Your task to perform on an android device: Clear the cart on amazon.com. Add lg ultragear to the cart on amazon.com Image 0: 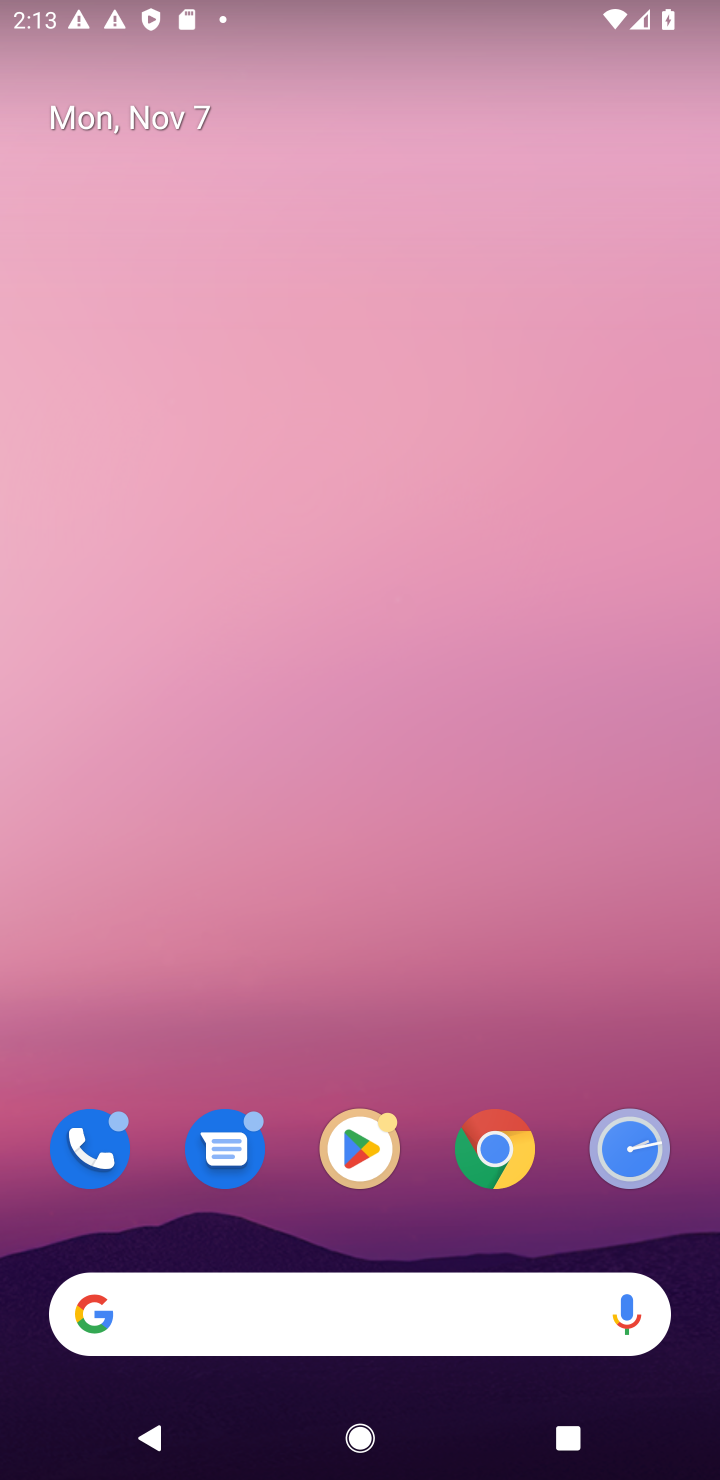
Step 0: click (501, 1153)
Your task to perform on an android device: Clear the cart on amazon.com. Add lg ultragear to the cart on amazon.com Image 1: 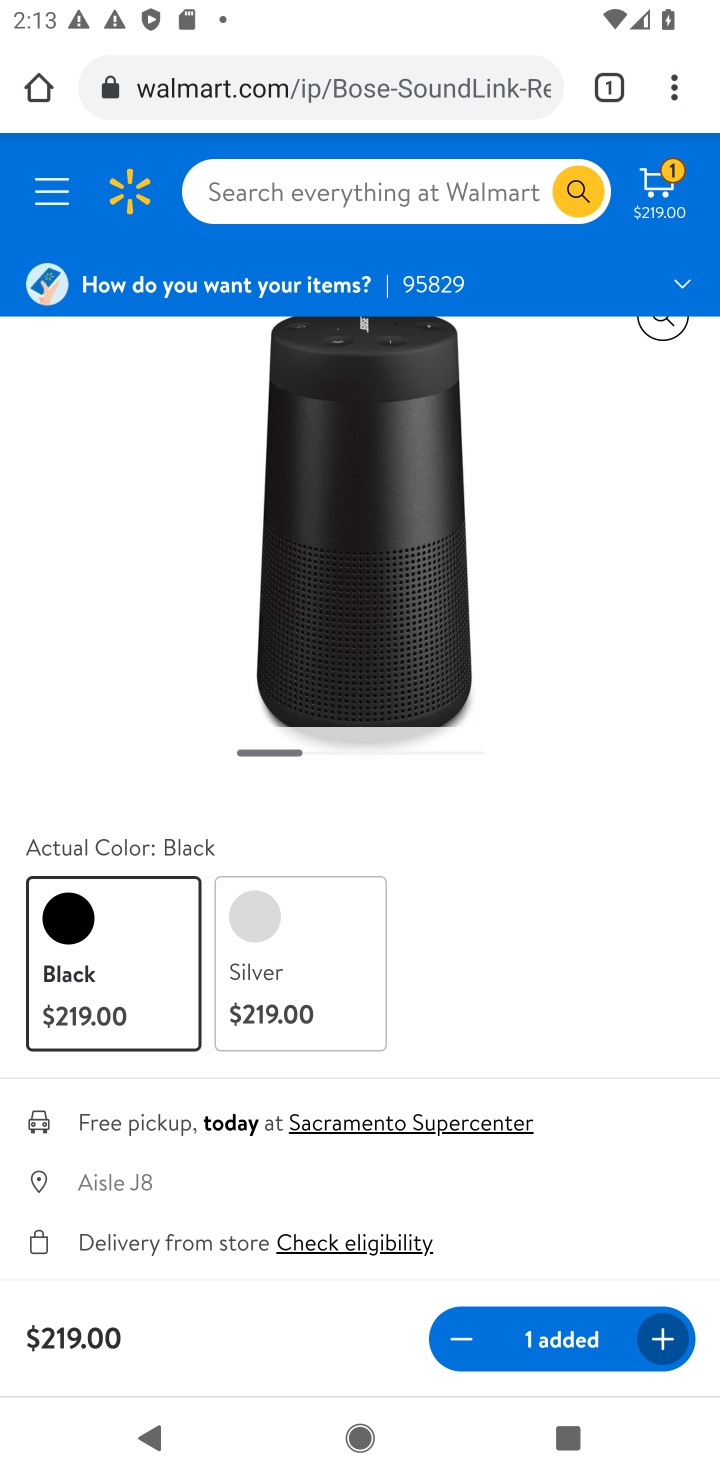
Step 1: click (280, 97)
Your task to perform on an android device: Clear the cart on amazon.com. Add lg ultragear to the cart on amazon.com Image 2: 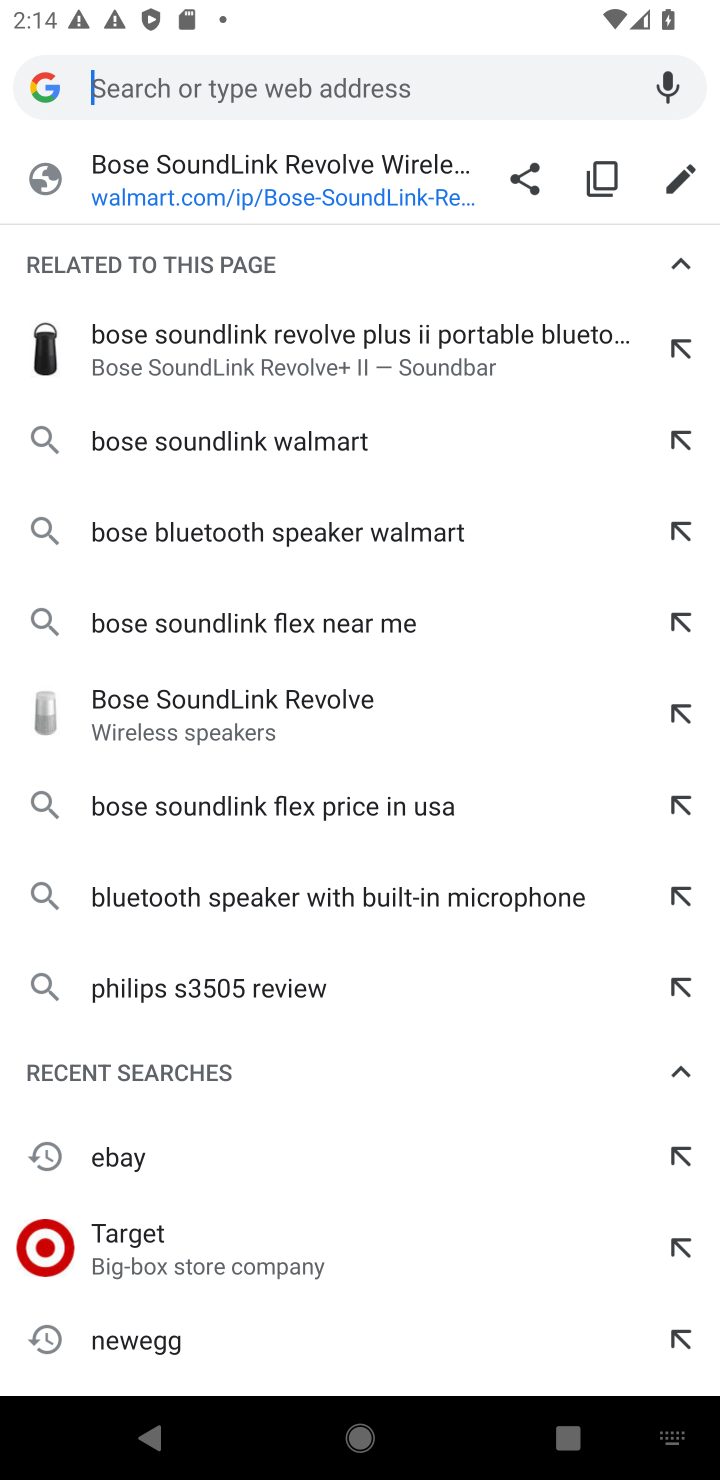
Step 2: type "amazon"
Your task to perform on an android device: Clear the cart on amazon.com. Add lg ultragear to the cart on amazon.com Image 3: 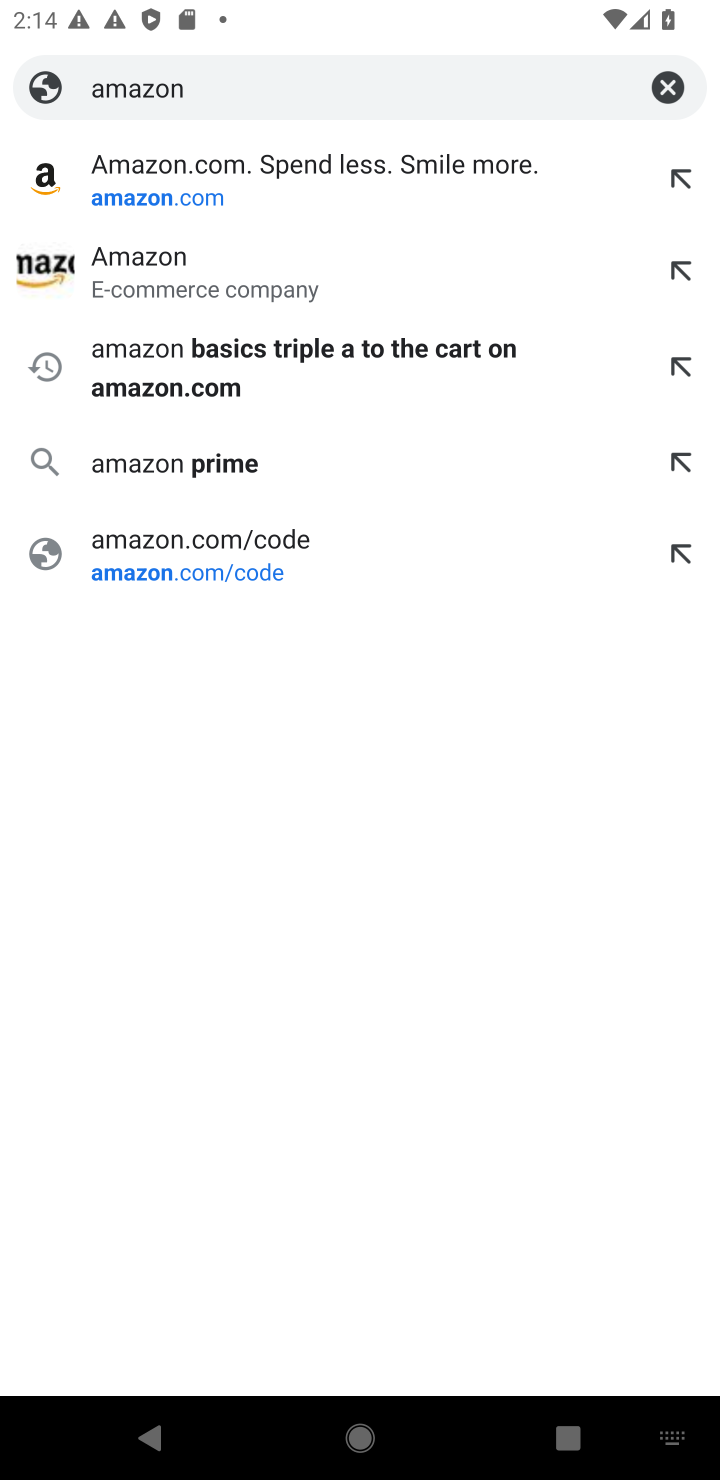
Step 3: click (145, 278)
Your task to perform on an android device: Clear the cart on amazon.com. Add lg ultragear to the cart on amazon.com Image 4: 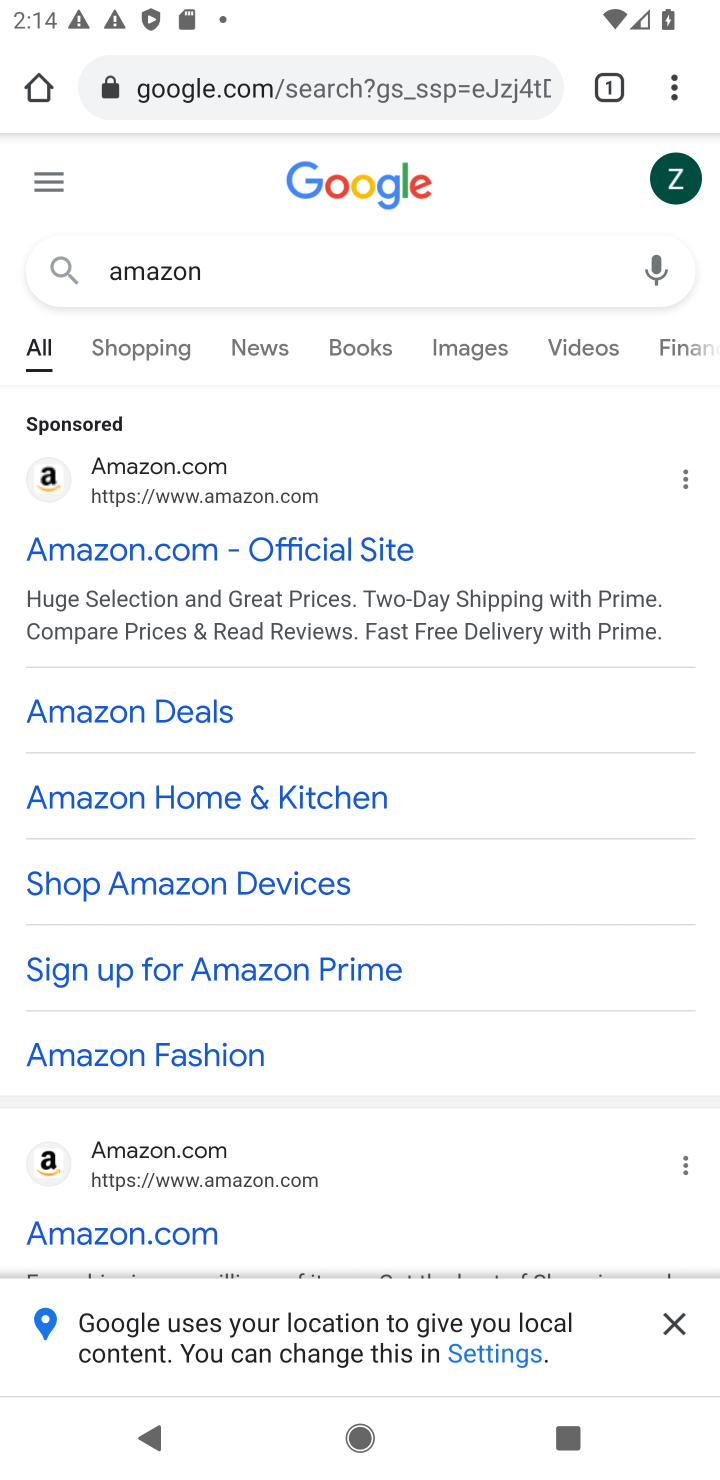
Step 4: click (673, 1309)
Your task to perform on an android device: Clear the cart on amazon.com. Add lg ultragear to the cart on amazon.com Image 5: 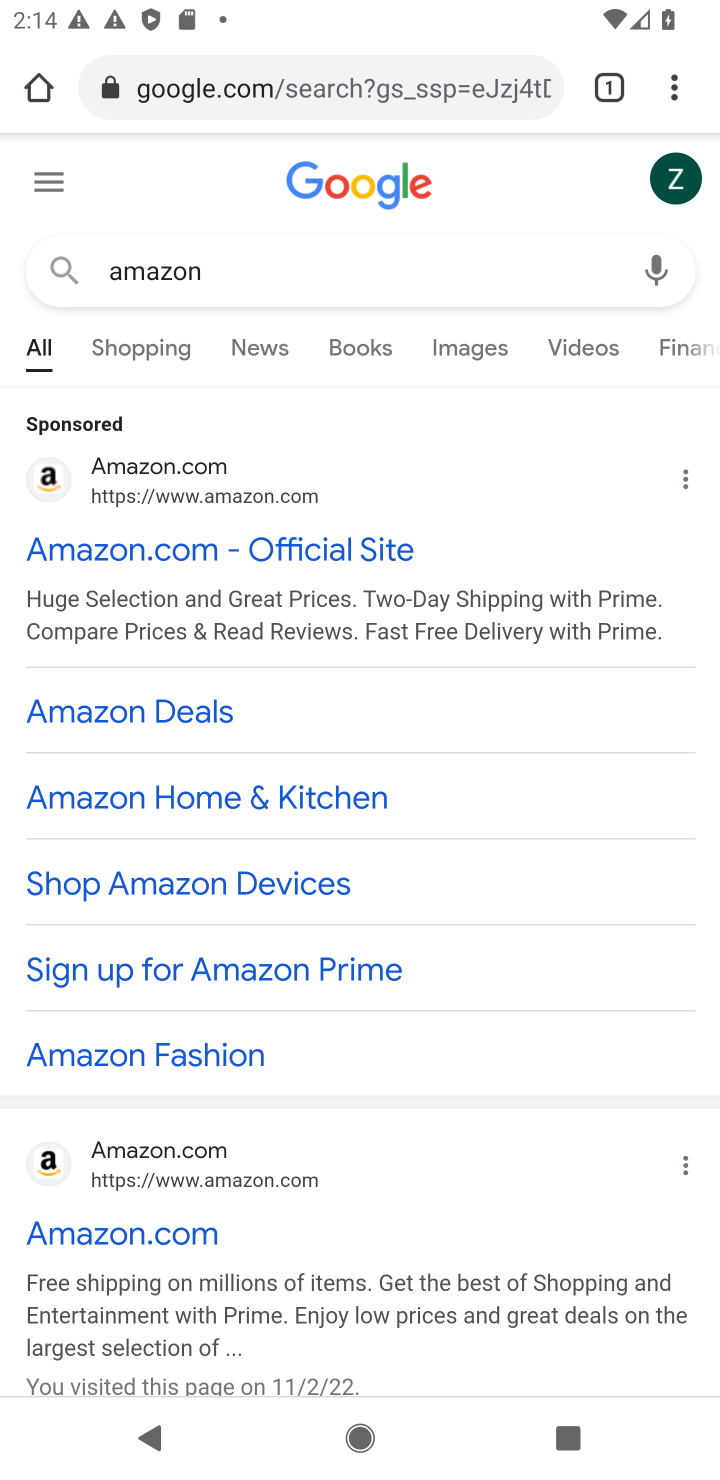
Step 5: click (111, 1233)
Your task to perform on an android device: Clear the cart on amazon.com. Add lg ultragear to the cart on amazon.com Image 6: 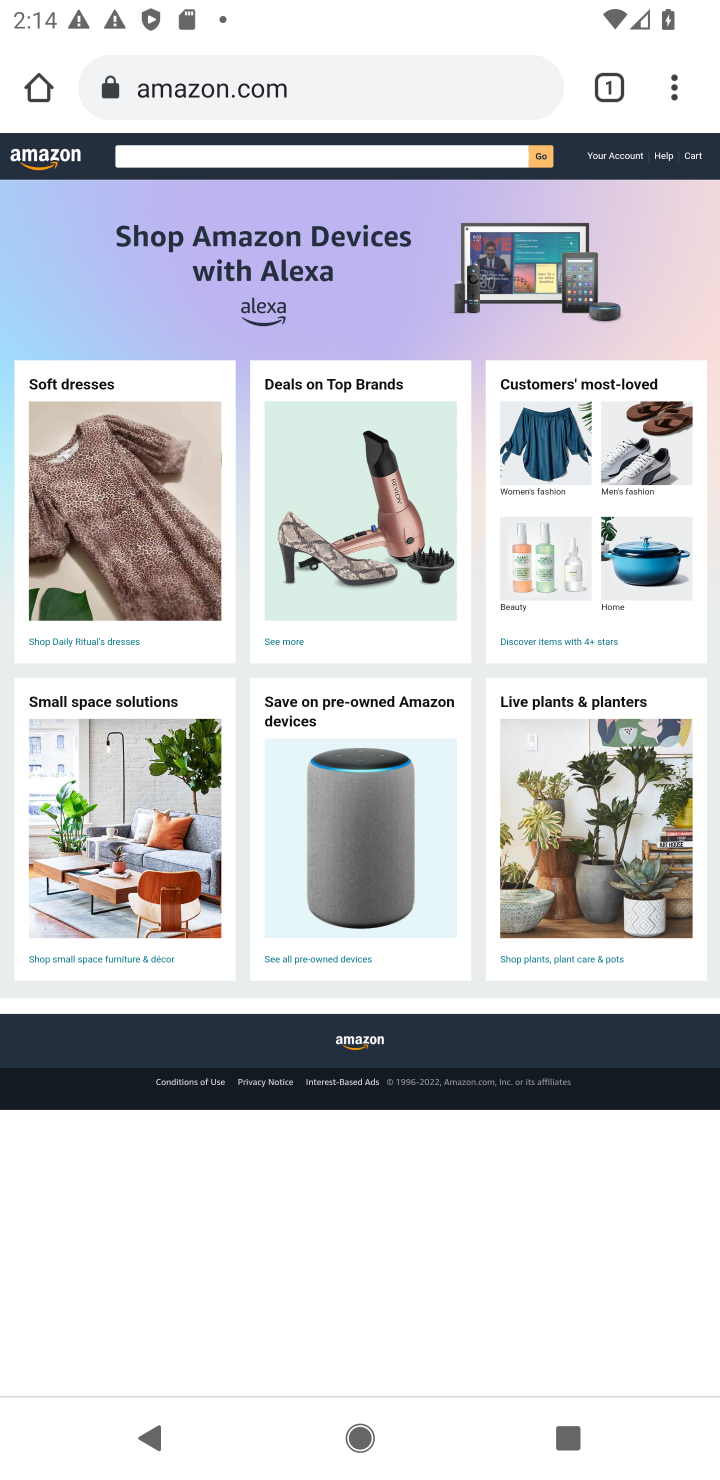
Step 6: click (212, 156)
Your task to perform on an android device: Clear the cart on amazon.com. Add lg ultragear to the cart on amazon.com Image 7: 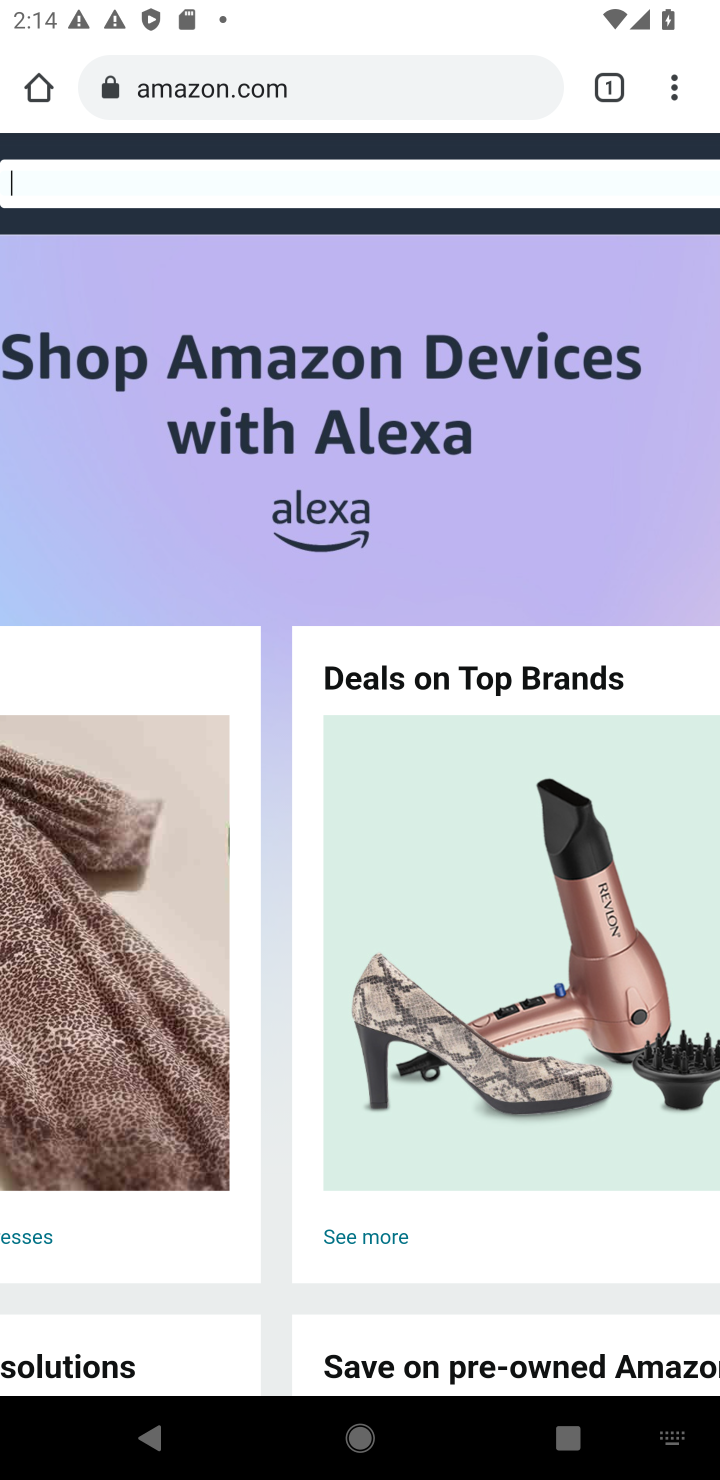
Step 7: type "lg ultragear "
Your task to perform on an android device: Clear the cart on amazon.com. Add lg ultragear to the cart on amazon.com Image 8: 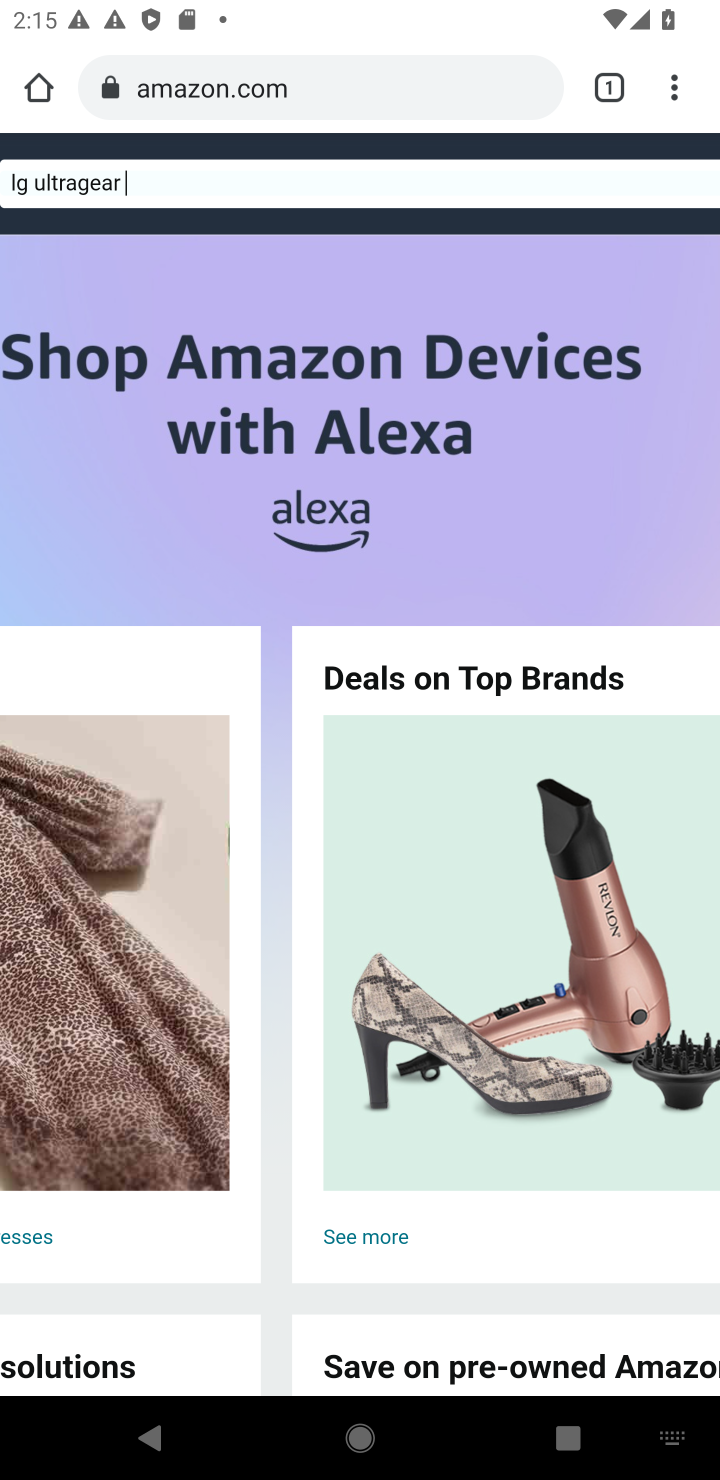
Step 8: type ""
Your task to perform on an android device: Clear the cart on amazon.com. Add lg ultragear to the cart on amazon.com Image 9: 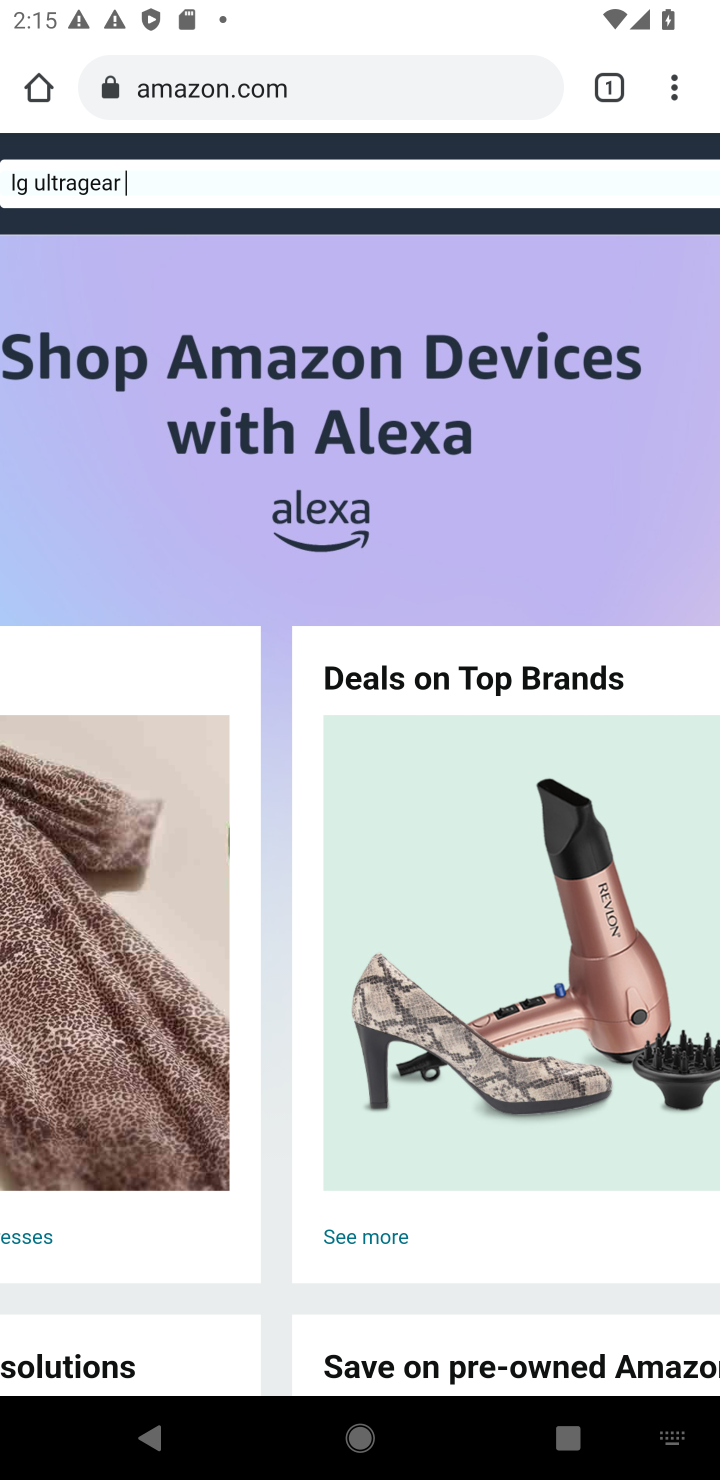
Step 9: type ""
Your task to perform on an android device: Clear the cart on amazon.com. Add lg ultragear to the cart on amazon.com Image 10: 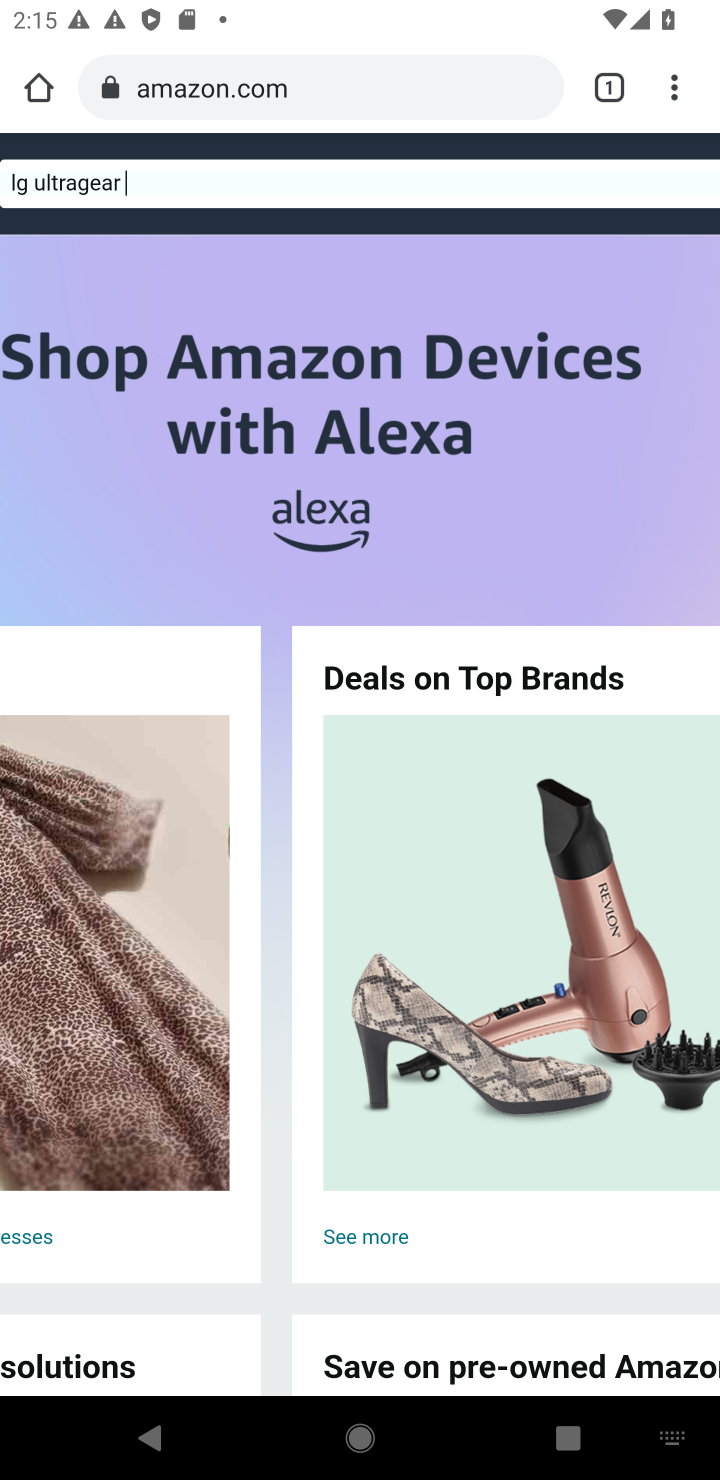
Step 10: drag from (399, 882) to (405, 212)
Your task to perform on an android device: Clear the cart on amazon.com. Add lg ultragear to the cart on amazon.com Image 11: 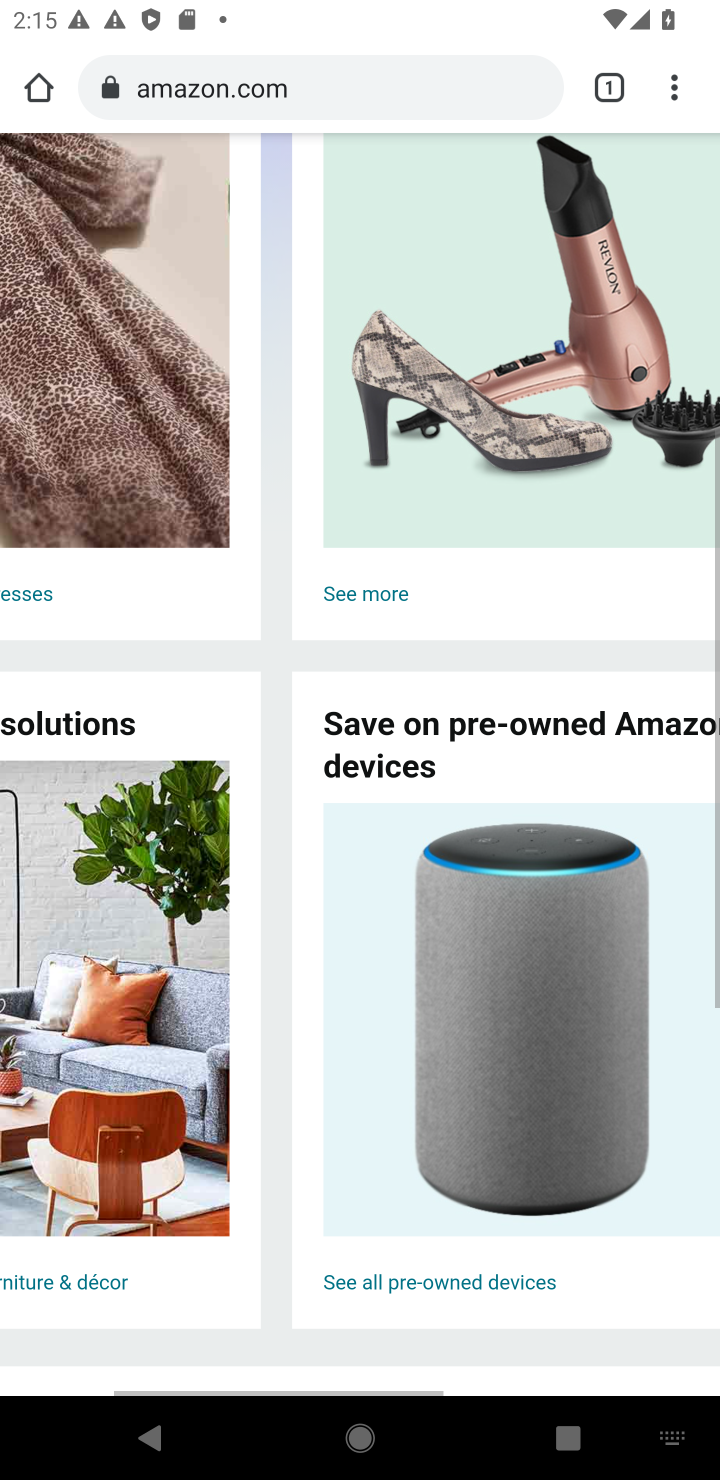
Step 11: drag from (471, 1117) to (498, 433)
Your task to perform on an android device: Clear the cart on amazon.com. Add lg ultragear to the cart on amazon.com Image 12: 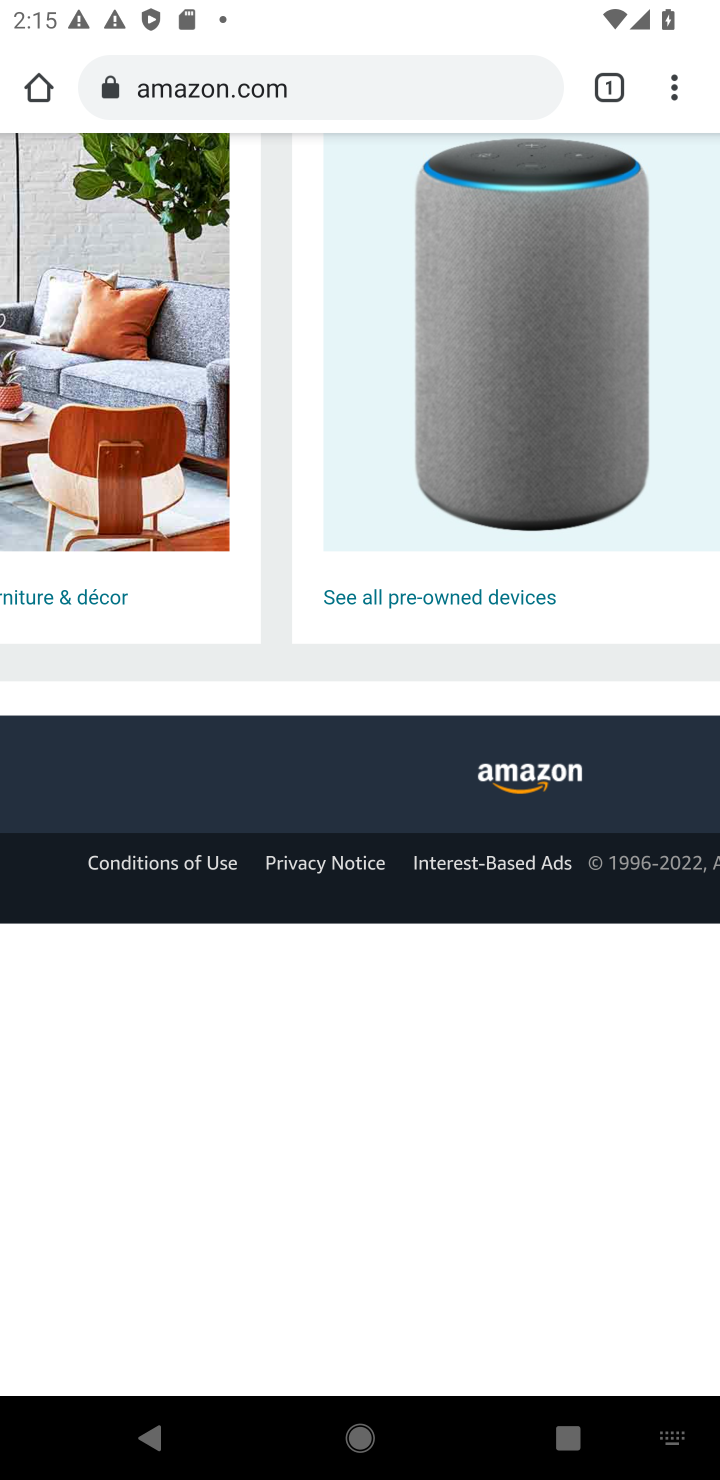
Step 12: drag from (373, 1004) to (410, 303)
Your task to perform on an android device: Clear the cart on amazon.com. Add lg ultragear to the cart on amazon.com Image 13: 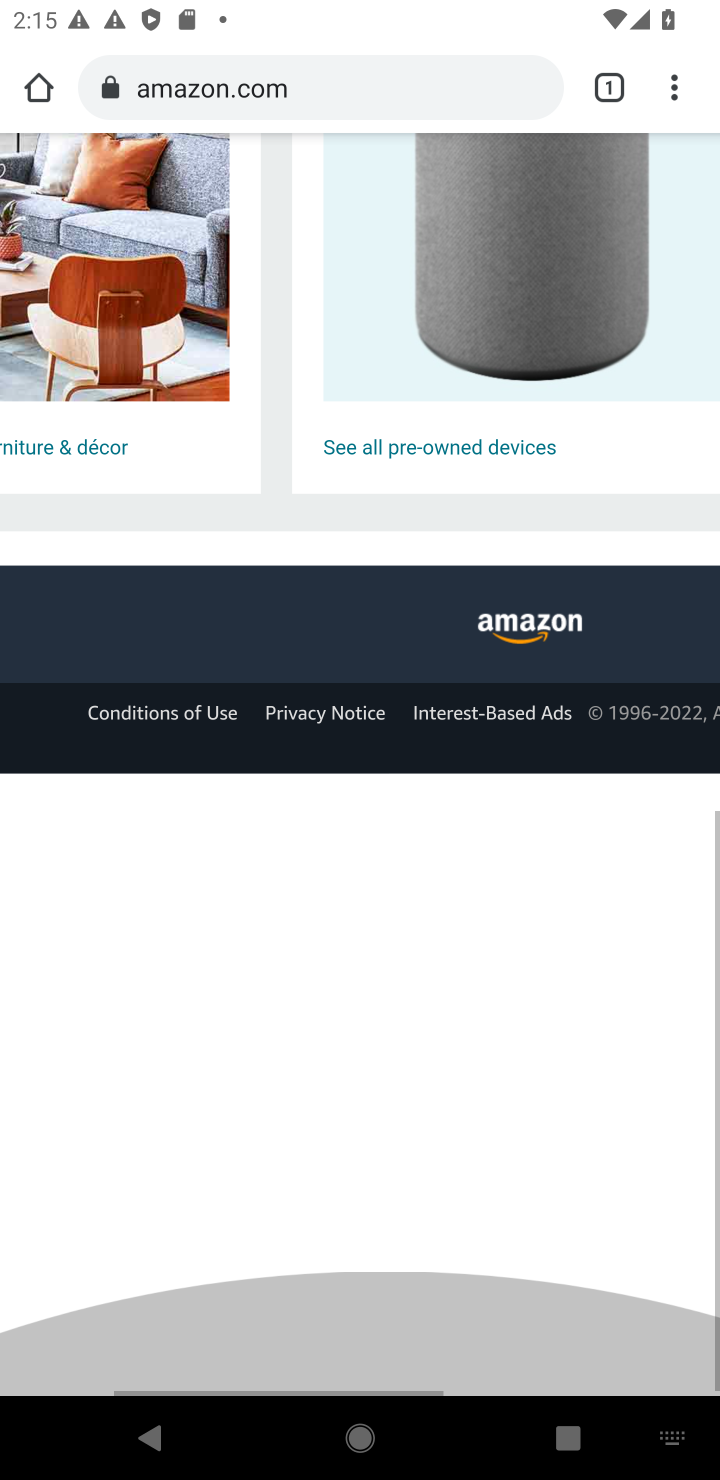
Step 13: drag from (436, 1284) to (427, 464)
Your task to perform on an android device: Clear the cart on amazon.com. Add lg ultragear to the cart on amazon.com Image 14: 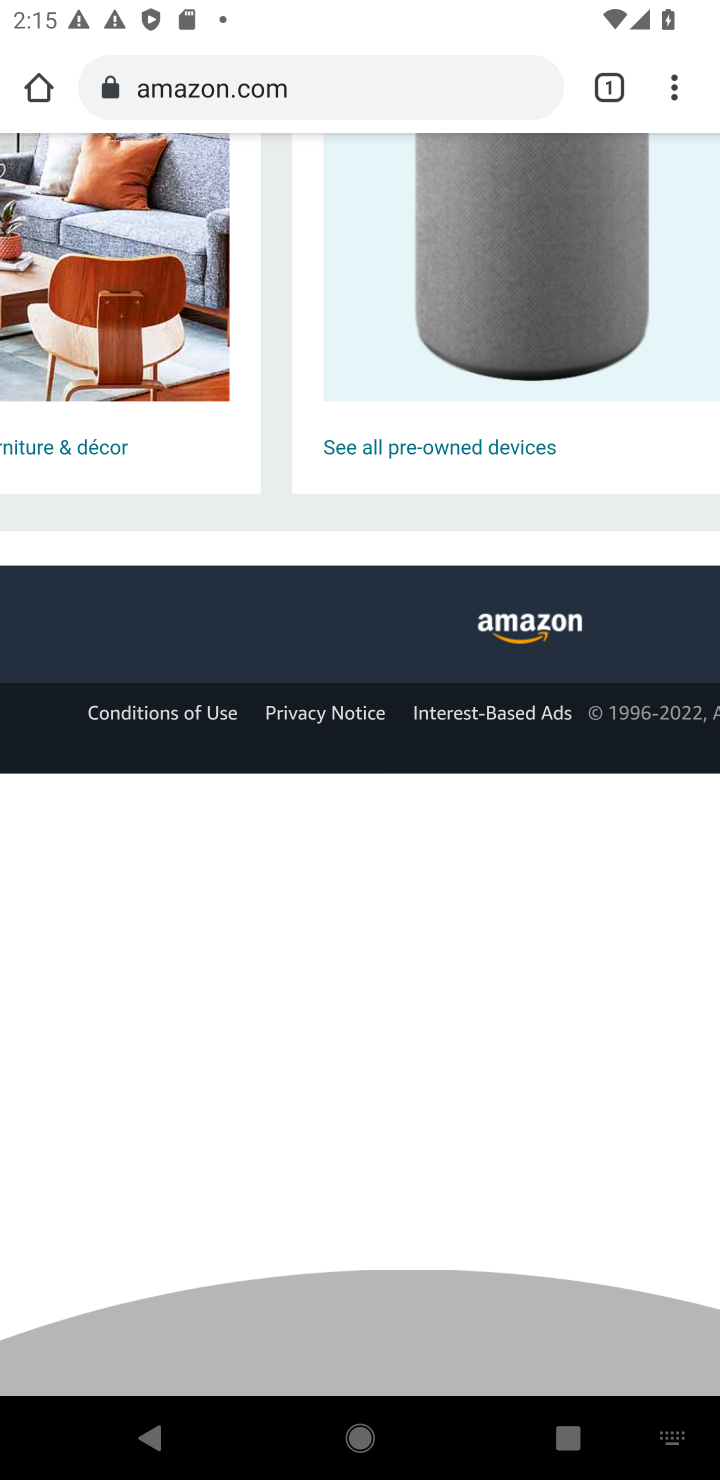
Step 14: drag from (294, 430) to (478, 1214)
Your task to perform on an android device: Clear the cart on amazon.com. Add lg ultragear to the cart on amazon.com Image 15: 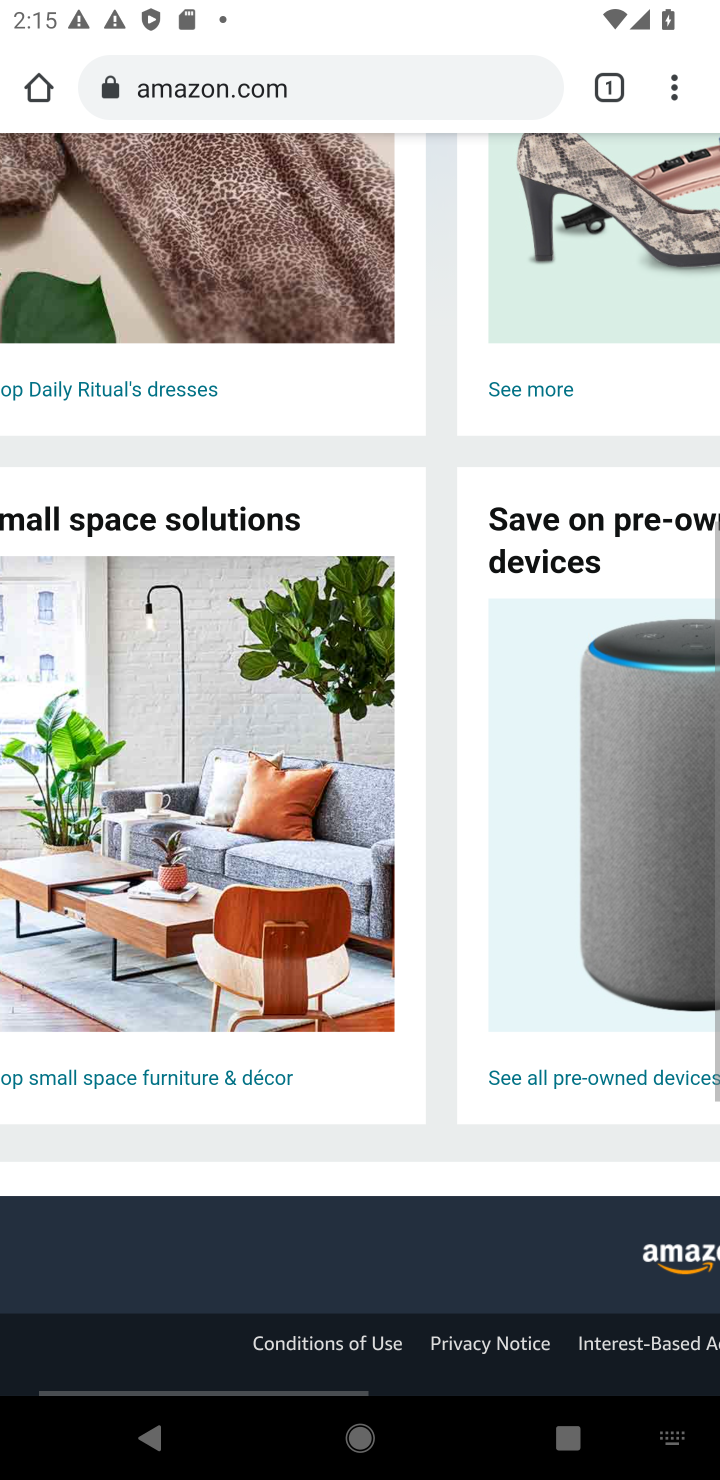
Step 15: drag from (266, 878) to (268, 1270)
Your task to perform on an android device: Clear the cart on amazon.com. Add lg ultragear to the cart on amazon.com Image 16: 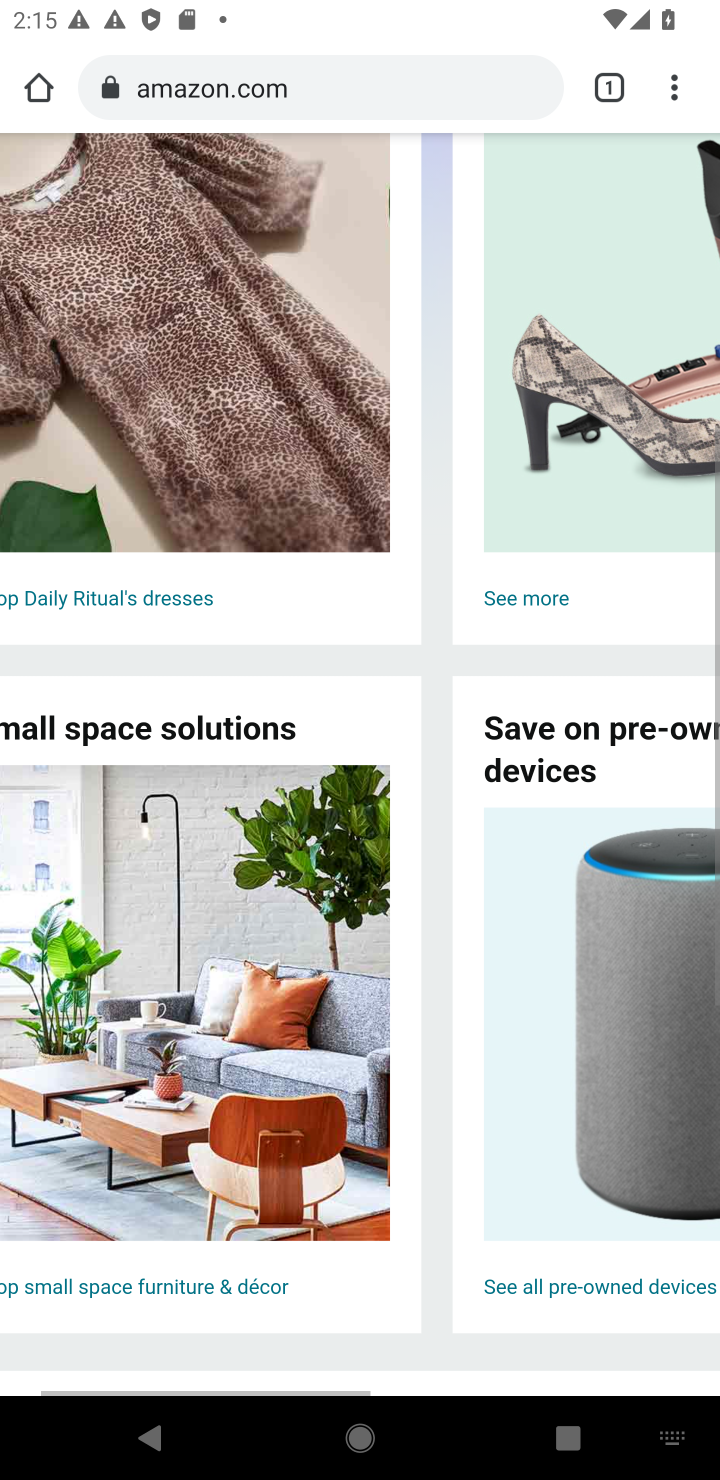
Step 16: drag from (364, 1051) to (290, 1296)
Your task to perform on an android device: Clear the cart on amazon.com. Add lg ultragear to the cart on amazon.com Image 17: 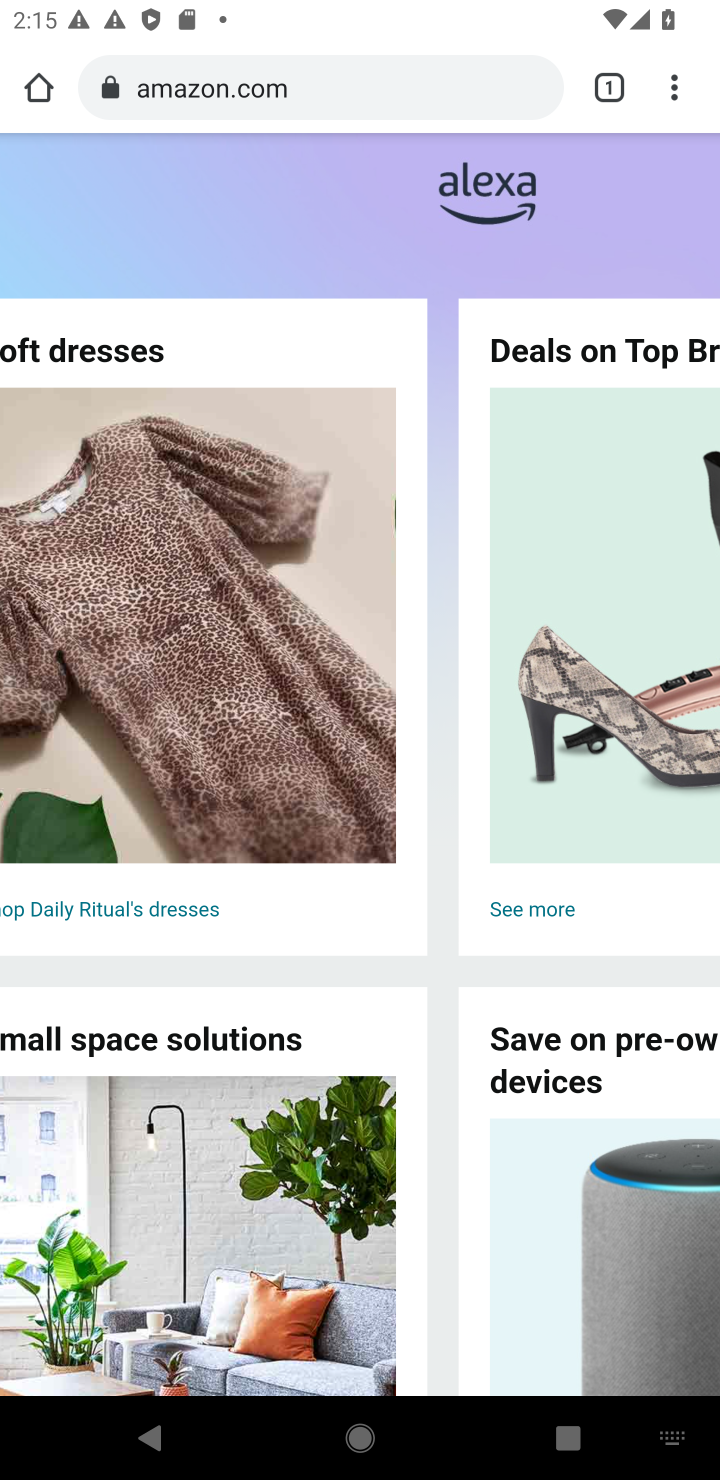
Step 17: drag from (433, 369) to (476, 1243)
Your task to perform on an android device: Clear the cart on amazon.com. Add lg ultragear to the cart on amazon.com Image 18: 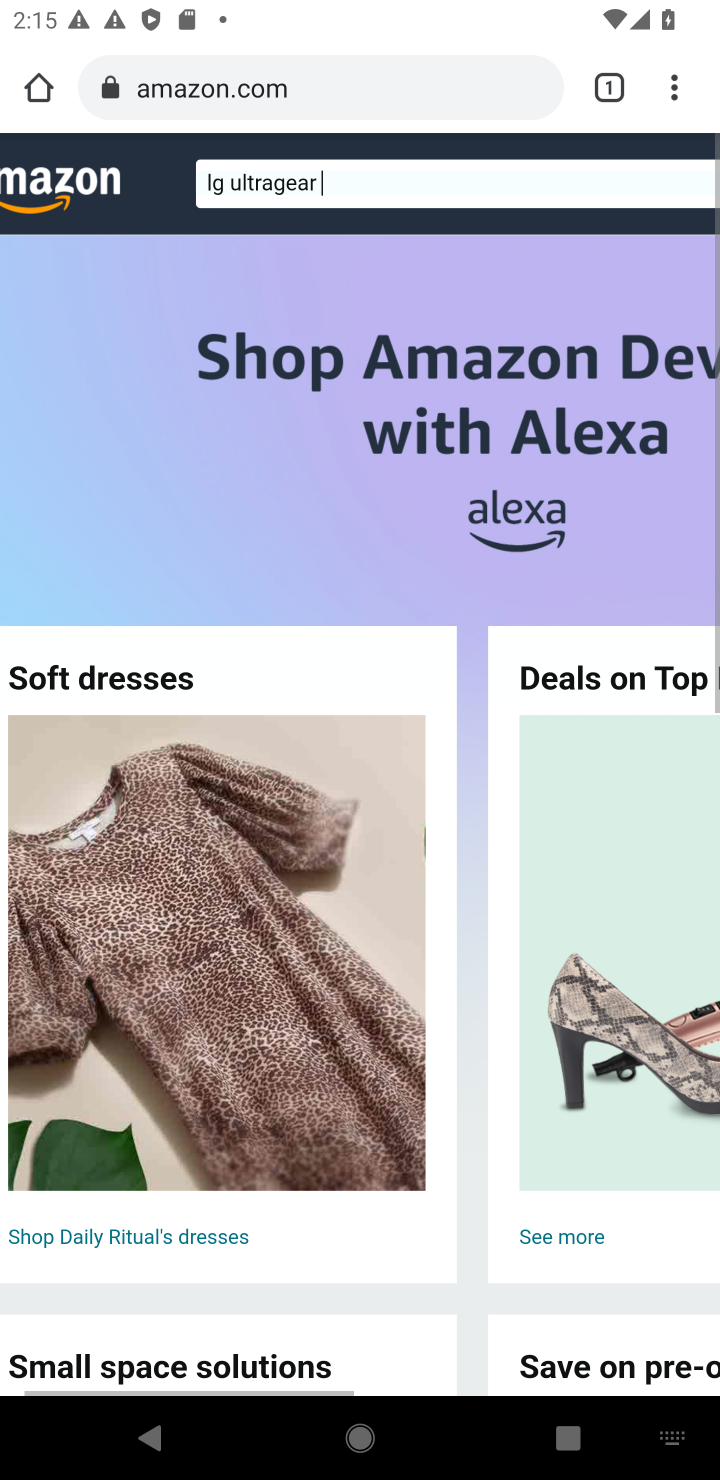
Step 18: drag from (421, 1124) to (345, 1221)
Your task to perform on an android device: Clear the cart on amazon.com. Add lg ultragear to the cart on amazon.com Image 19: 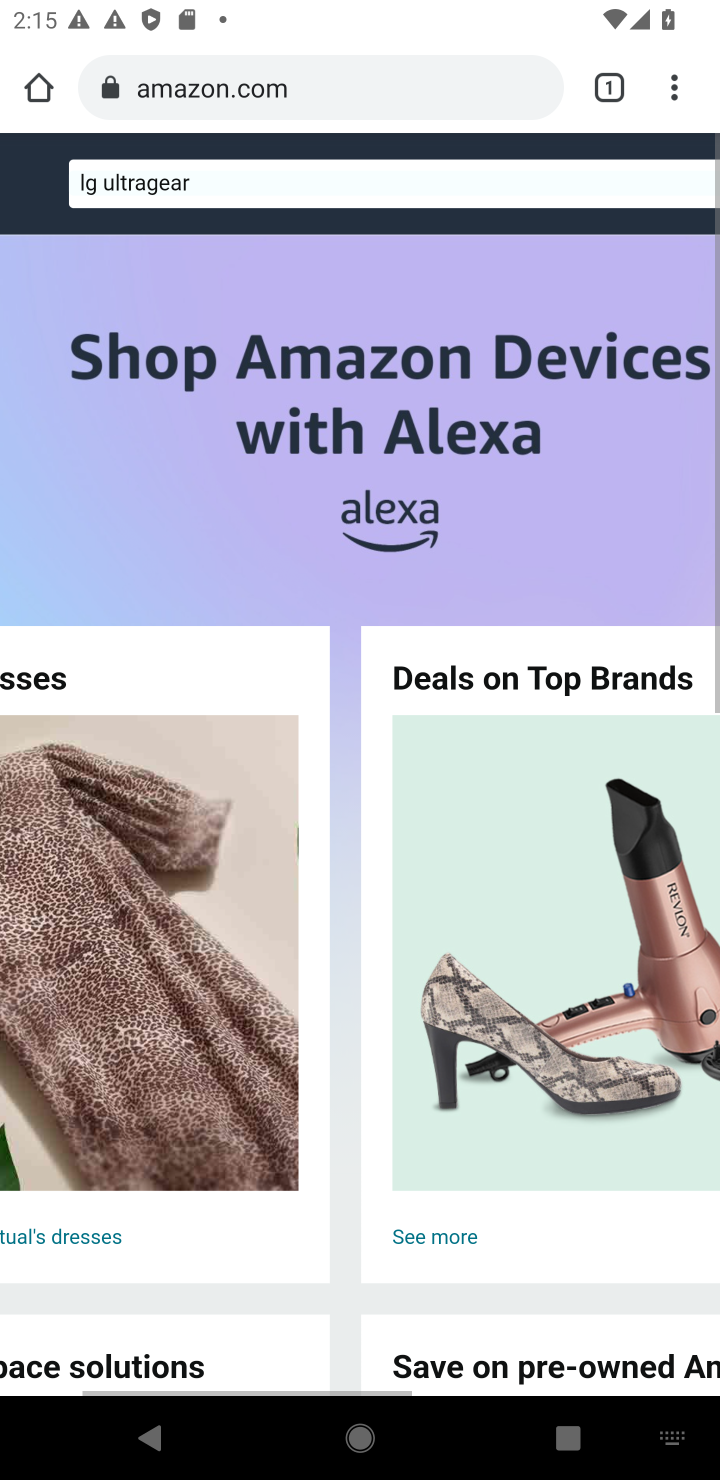
Step 19: drag from (225, 352) to (279, 773)
Your task to perform on an android device: Clear the cart on amazon.com. Add lg ultragear to the cart on amazon.com Image 20: 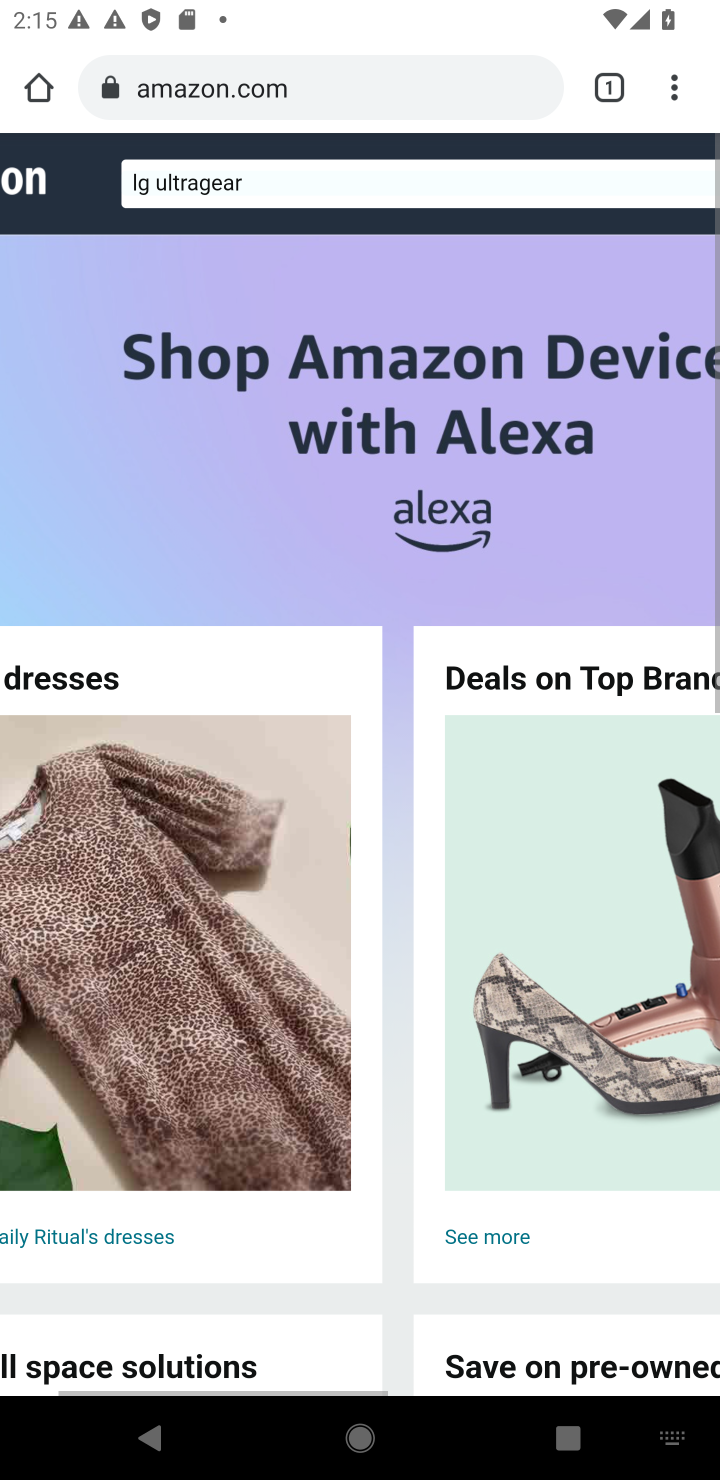
Step 20: click (224, 165)
Your task to perform on an android device: Clear the cart on amazon.com. Add lg ultragear to the cart on amazon.com Image 21: 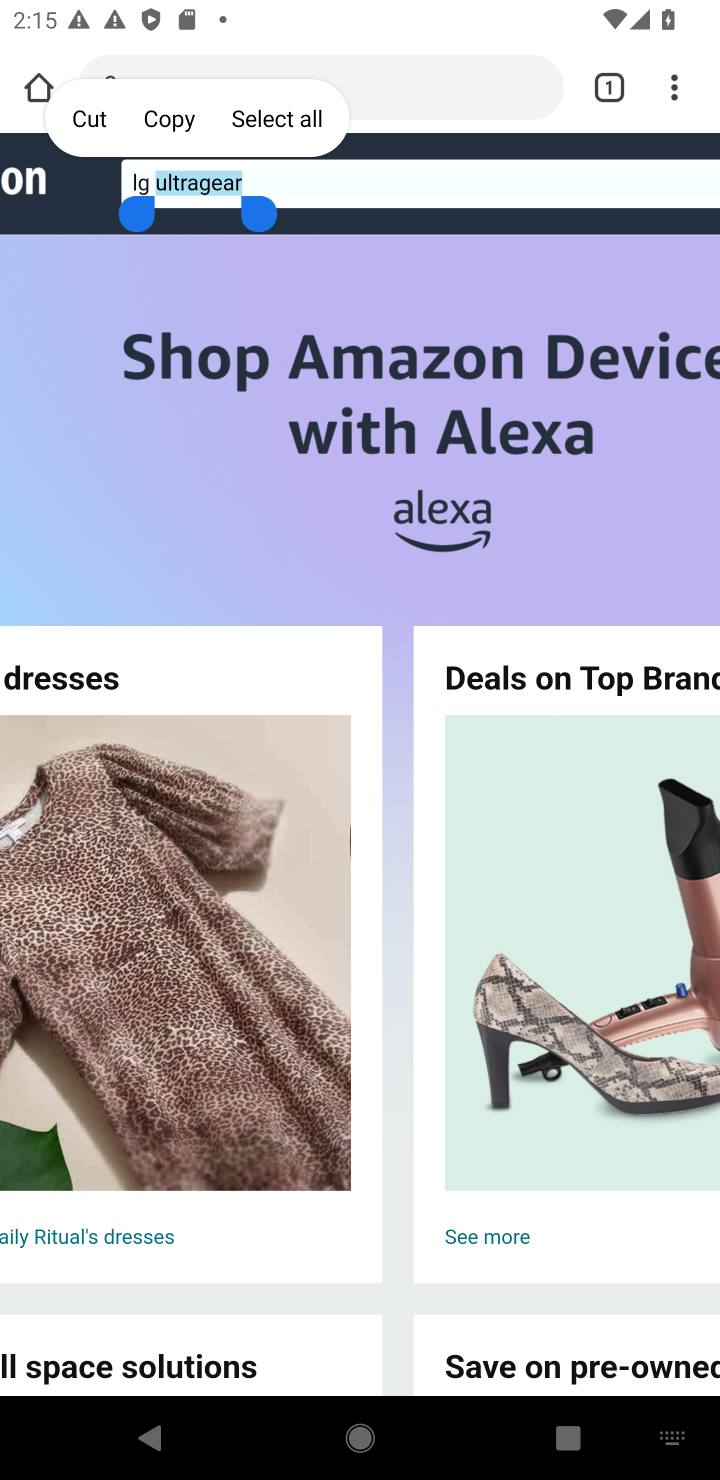
Step 21: click (82, 118)
Your task to perform on an android device: Clear the cart on amazon.com. Add lg ultragear to the cart on amazon.com Image 22: 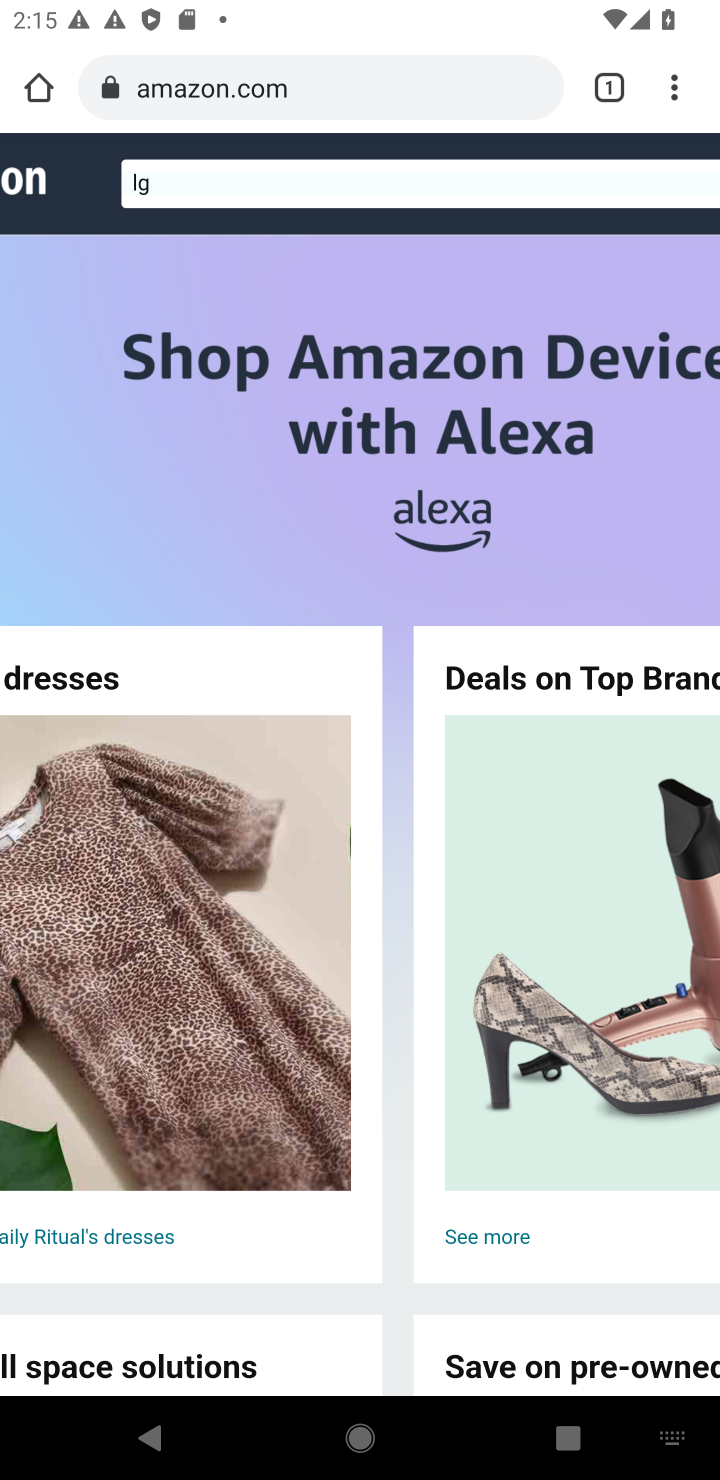
Step 22: type "ultragearr"
Your task to perform on an android device: Clear the cart on amazon.com. Add lg ultragear to the cart on amazon.com Image 23: 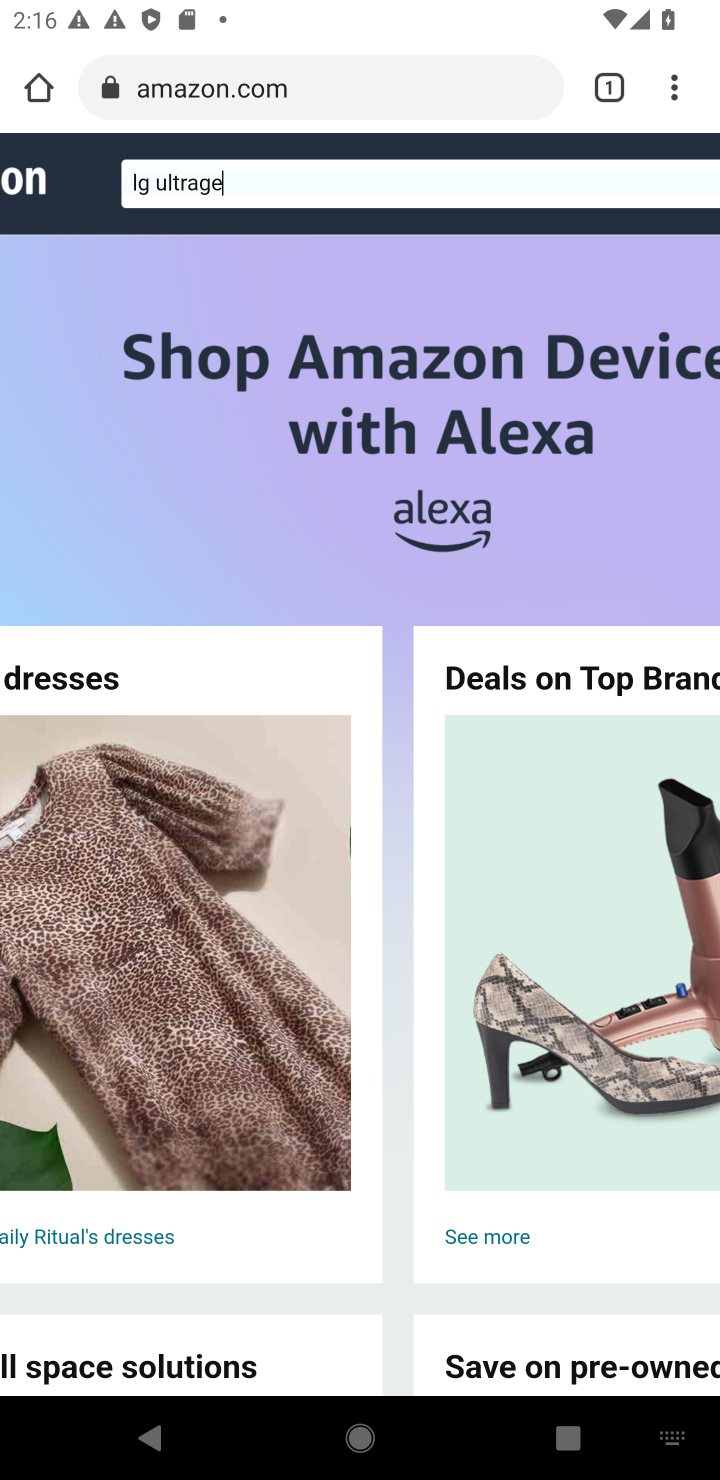
Step 23: type ""
Your task to perform on an android device: Clear the cart on amazon.com. Add lg ultragear to the cart on amazon.com Image 24: 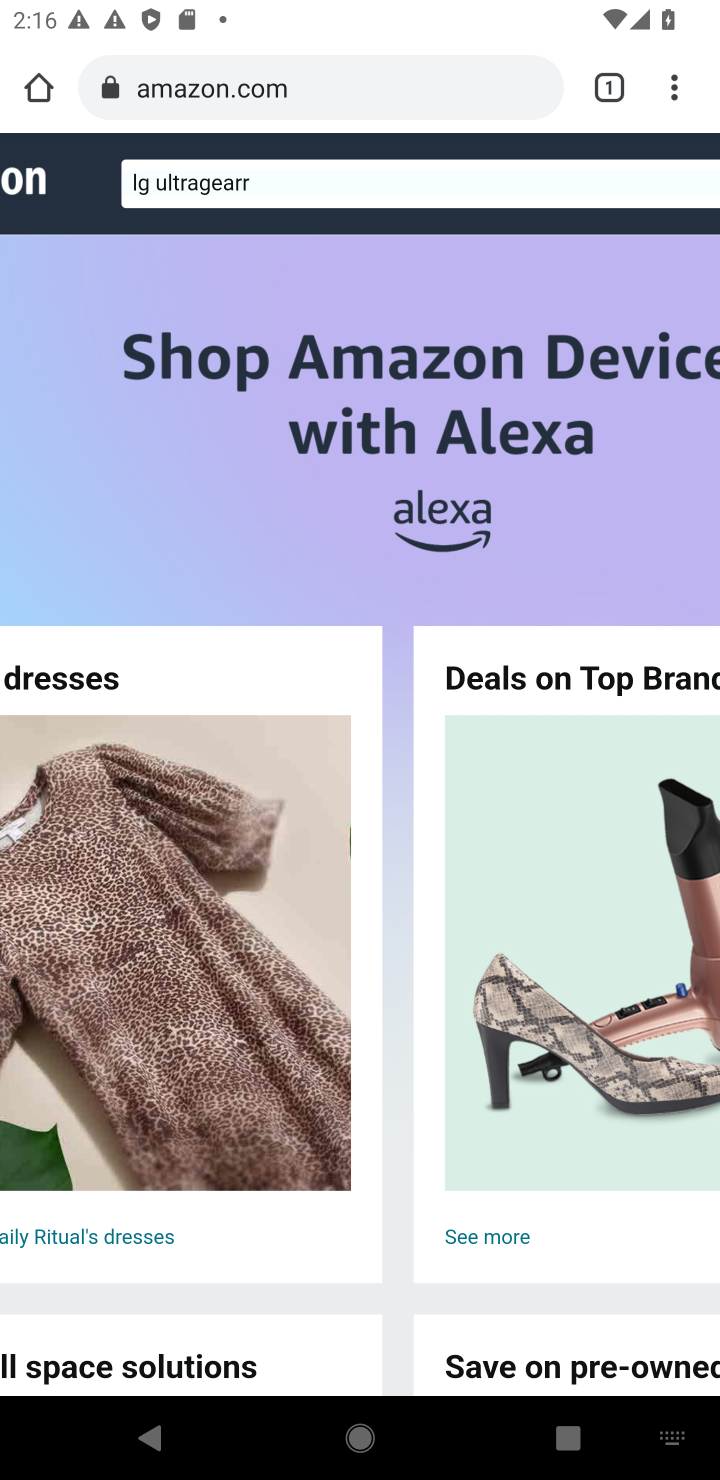
Step 24: type ""
Your task to perform on an android device: Clear the cart on amazon.com. Add lg ultragear to the cart on amazon.com Image 25: 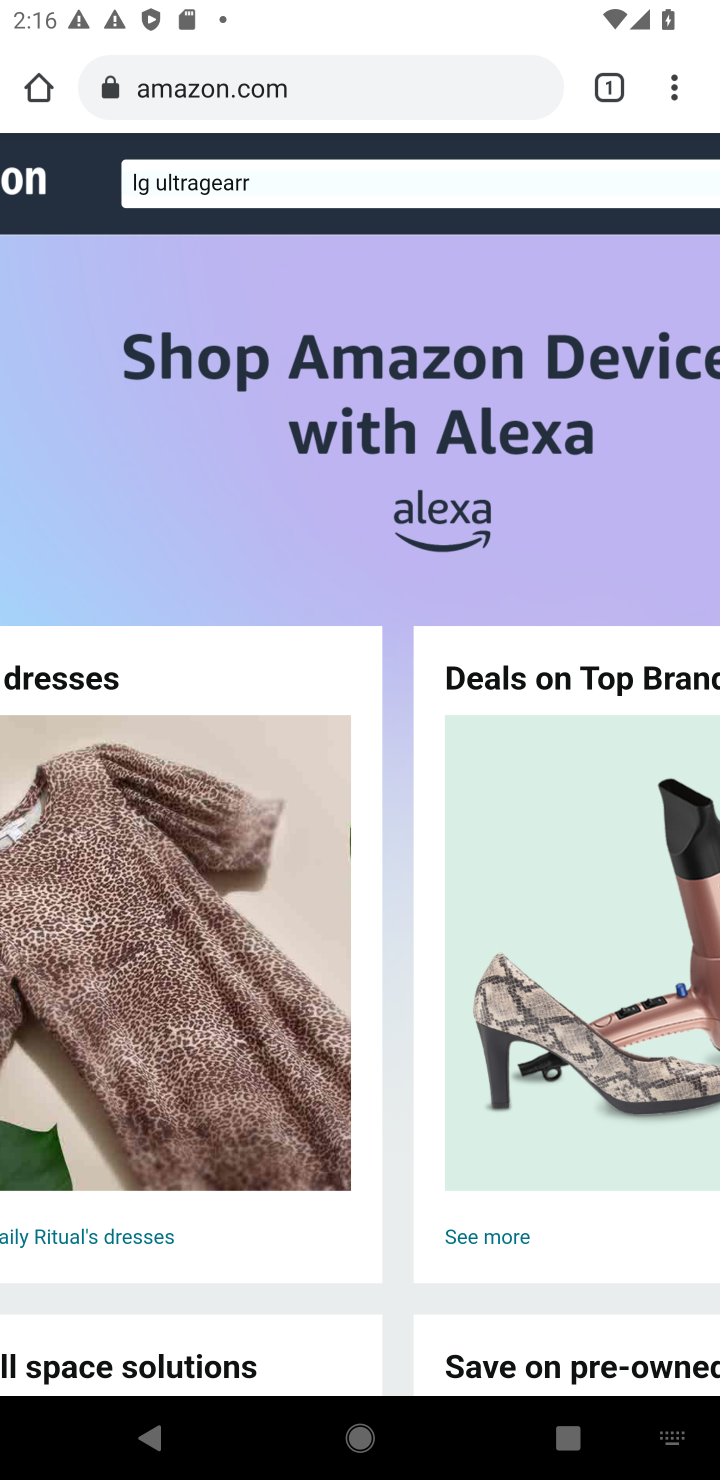
Step 25: type ""
Your task to perform on an android device: Clear the cart on amazon.com. Add lg ultragear to the cart on amazon.com Image 26: 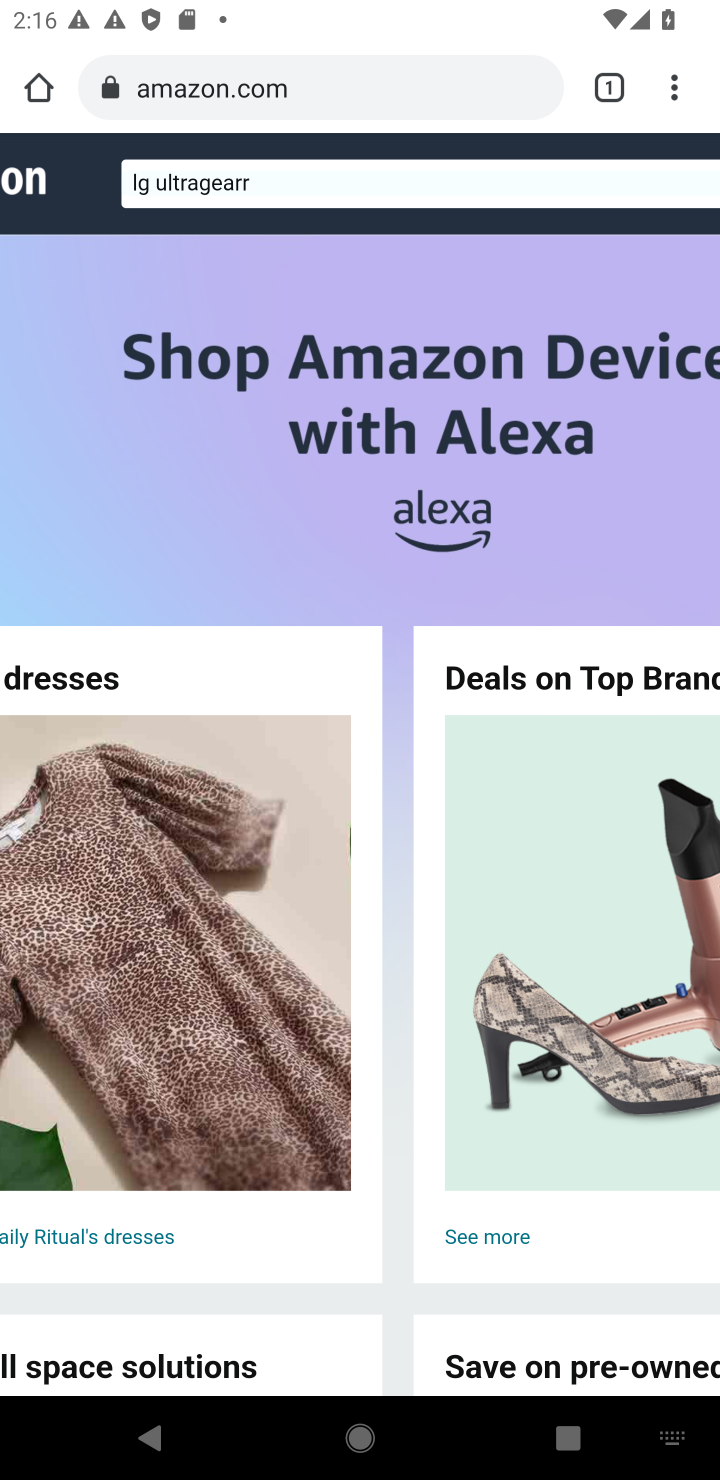
Step 26: press back button
Your task to perform on an android device: Clear the cart on amazon.com. Add lg ultragear to the cart on amazon.com Image 27: 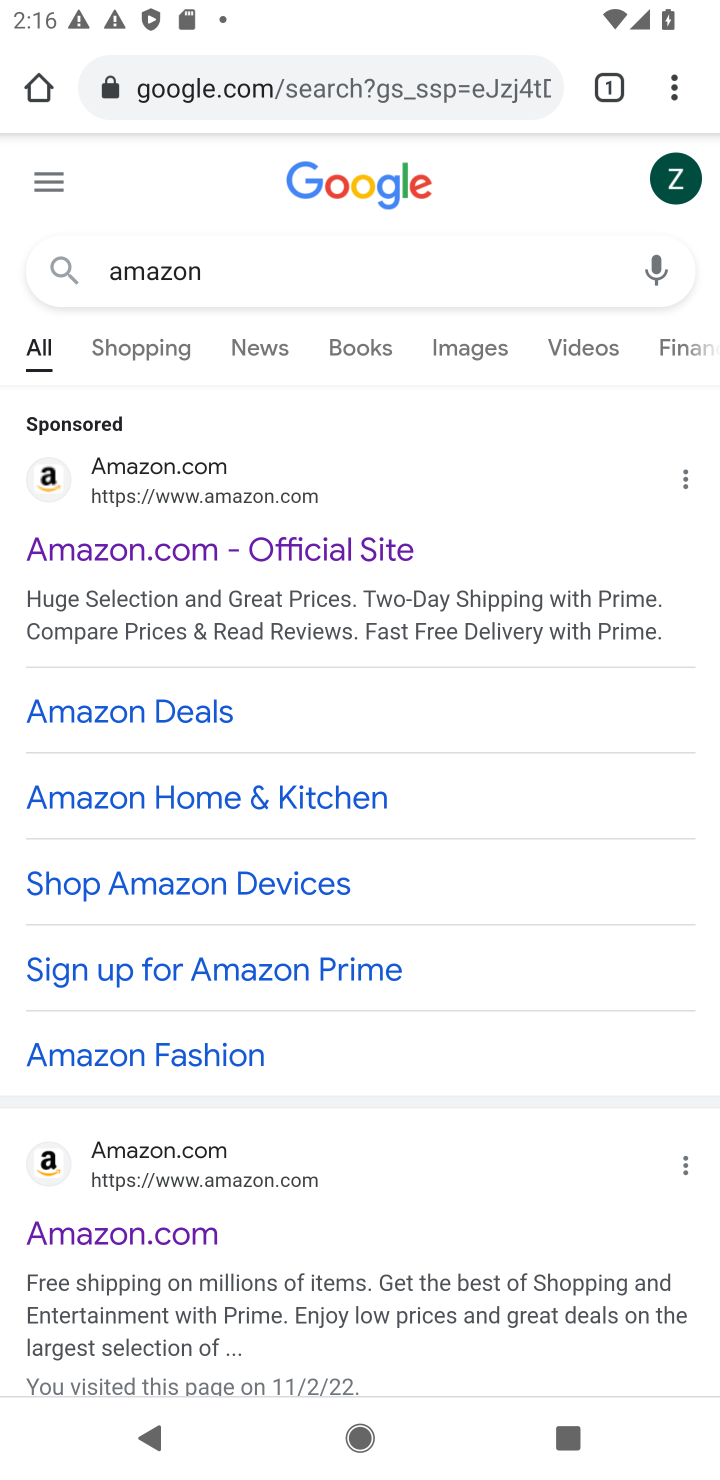
Step 27: drag from (308, 1194) to (312, 392)
Your task to perform on an android device: Clear the cart on amazon.com. Add lg ultragear to the cart on amazon.com Image 28: 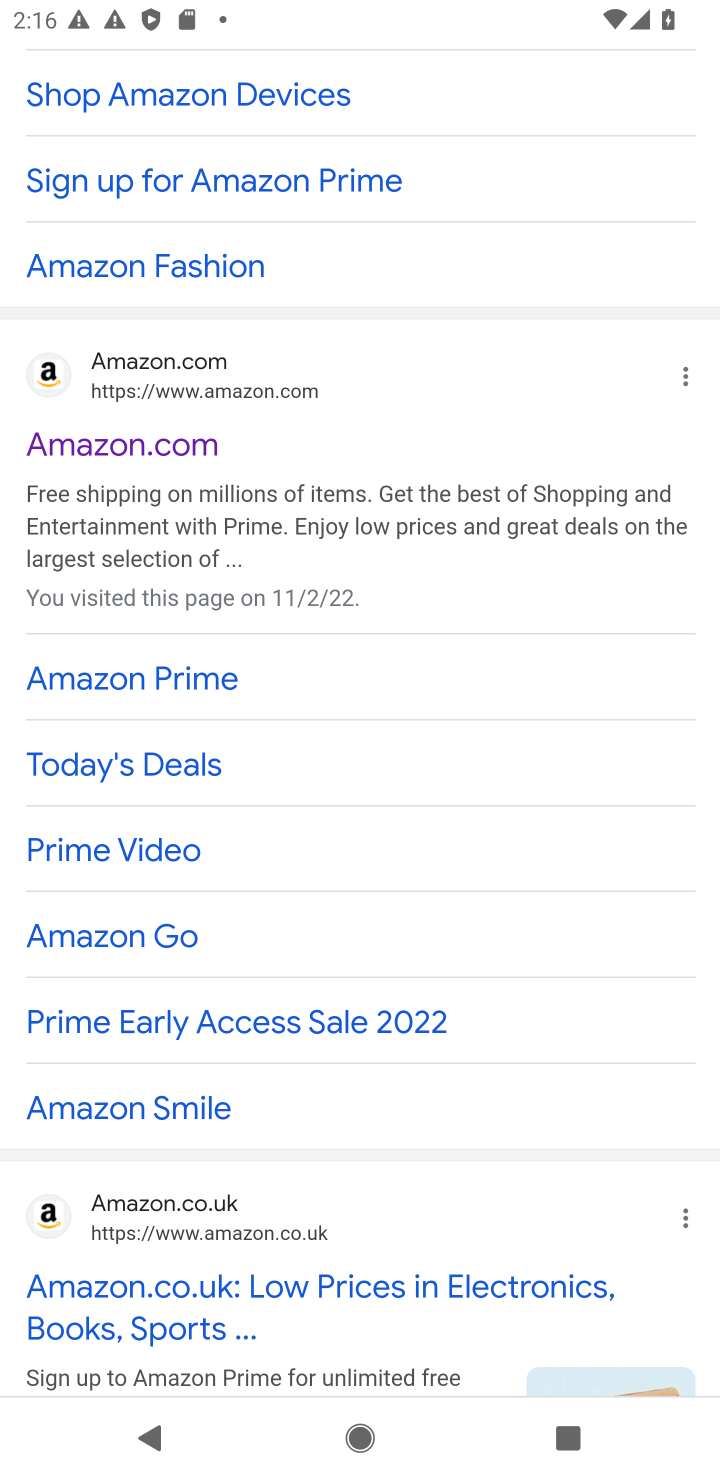
Step 28: click (75, 442)
Your task to perform on an android device: Clear the cart on amazon.com. Add lg ultragear to the cart on amazon.com Image 29: 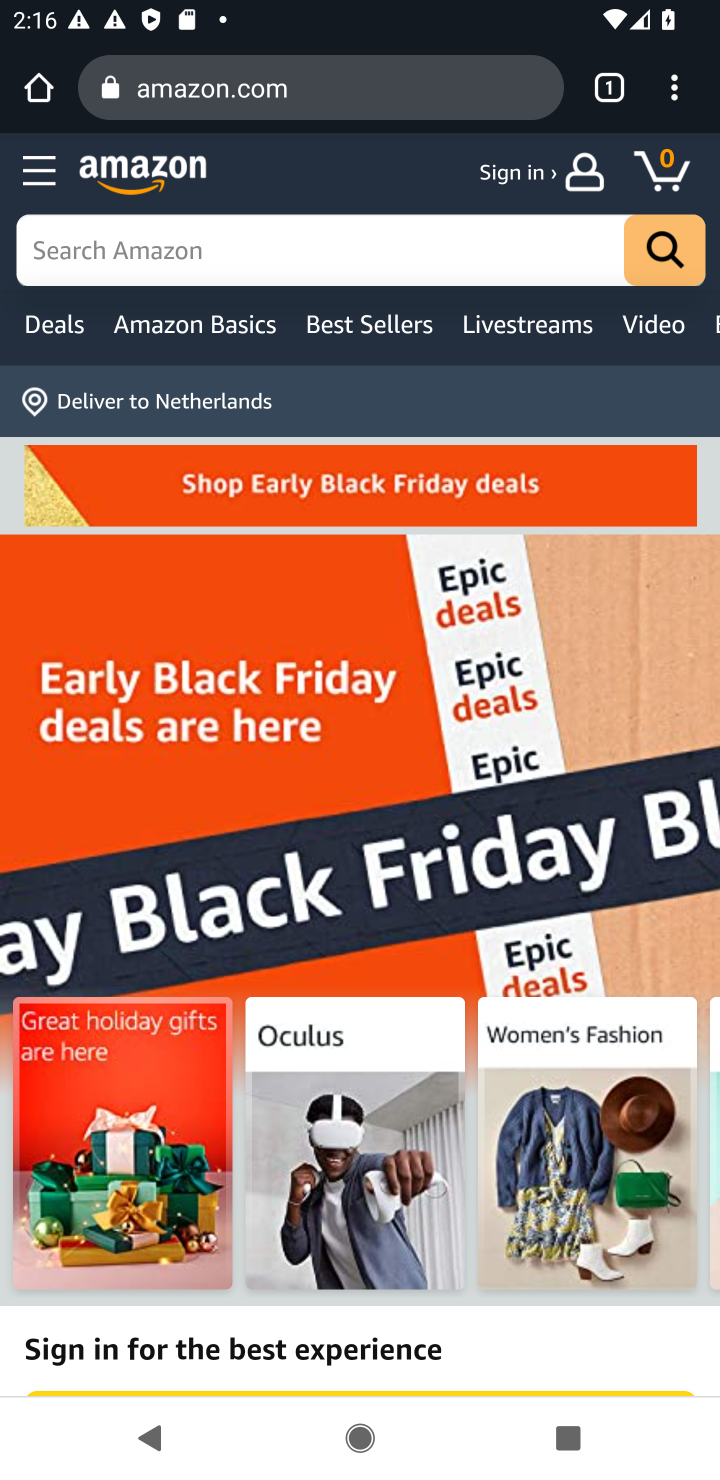
Step 29: click (399, 239)
Your task to perform on an android device: Clear the cart on amazon.com. Add lg ultragear to the cart on amazon.com Image 30: 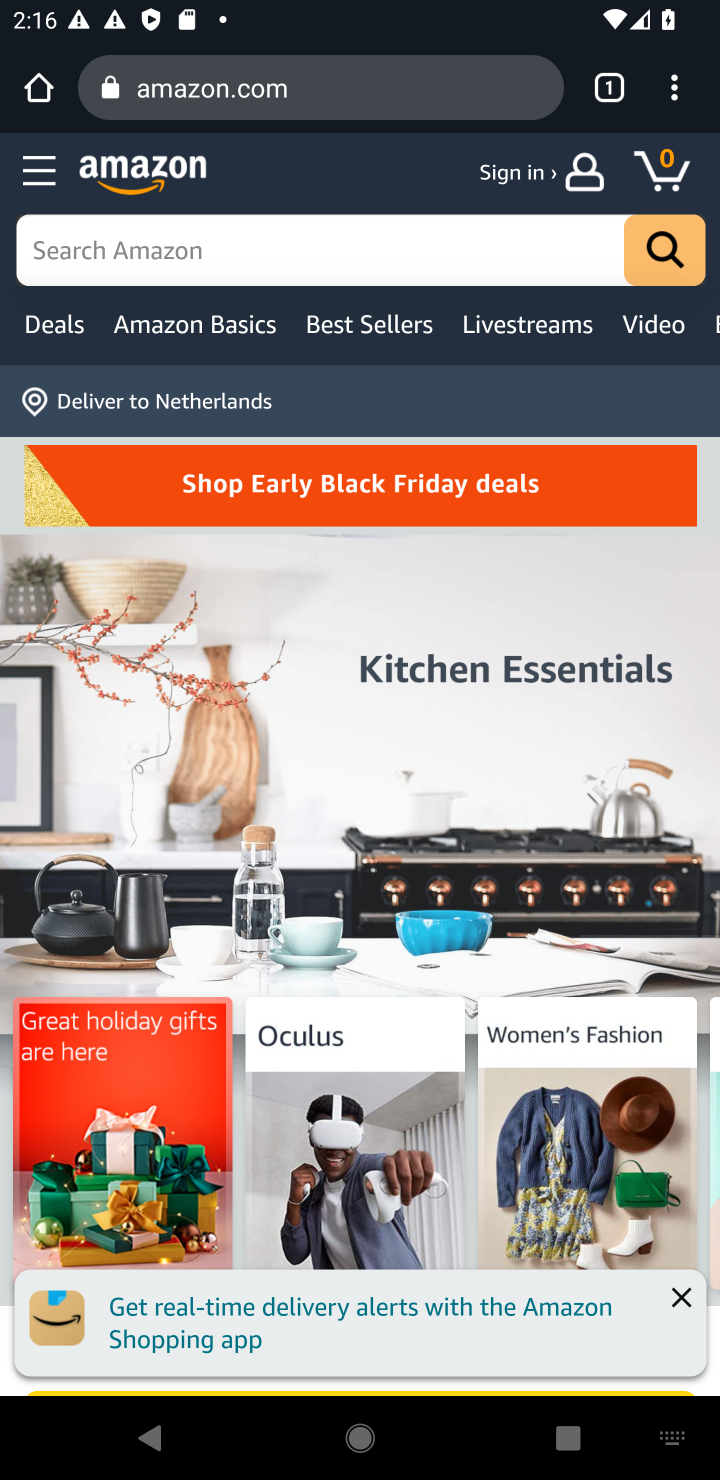
Step 30: type "lg ultragear"
Your task to perform on an android device: Clear the cart on amazon.com. Add lg ultragear to the cart on amazon.com Image 31: 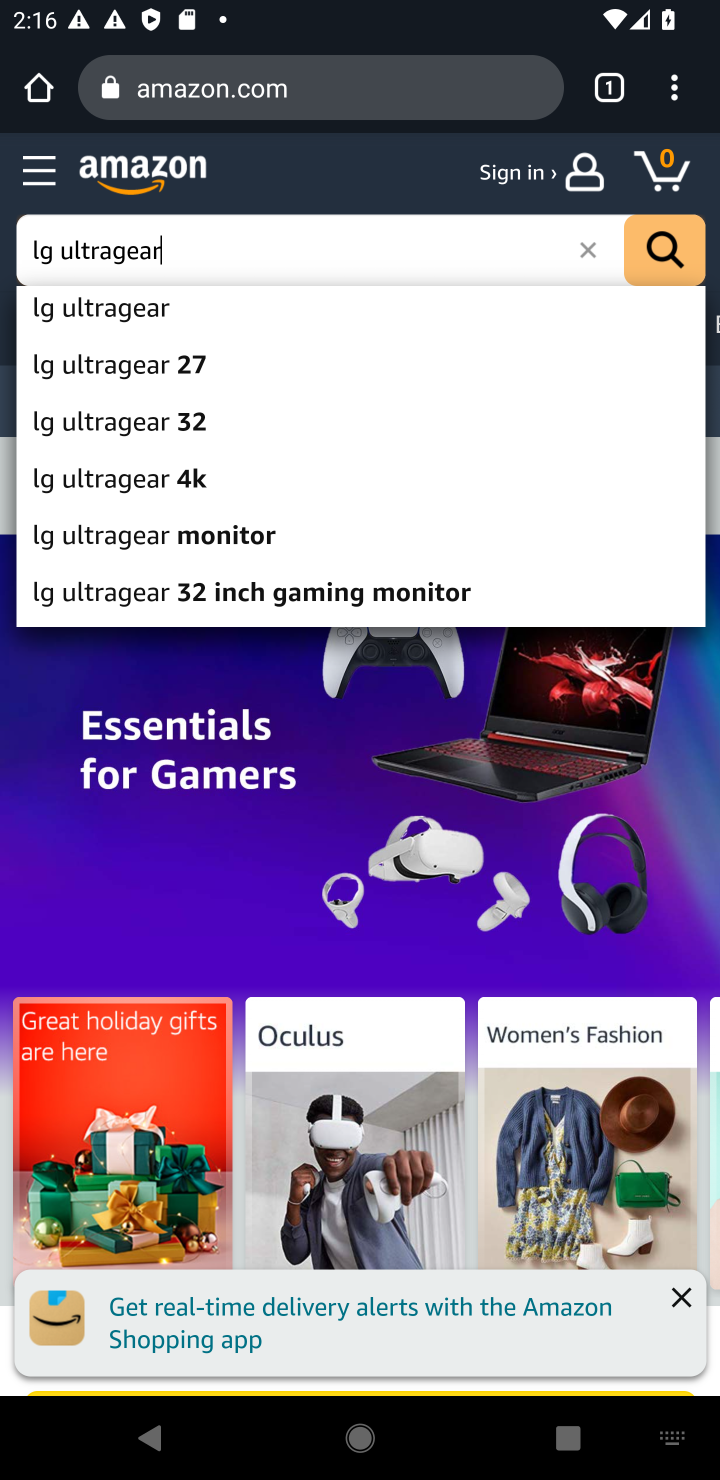
Step 31: click (681, 1293)
Your task to perform on an android device: Clear the cart on amazon.com. Add lg ultragear to the cart on amazon.com Image 32: 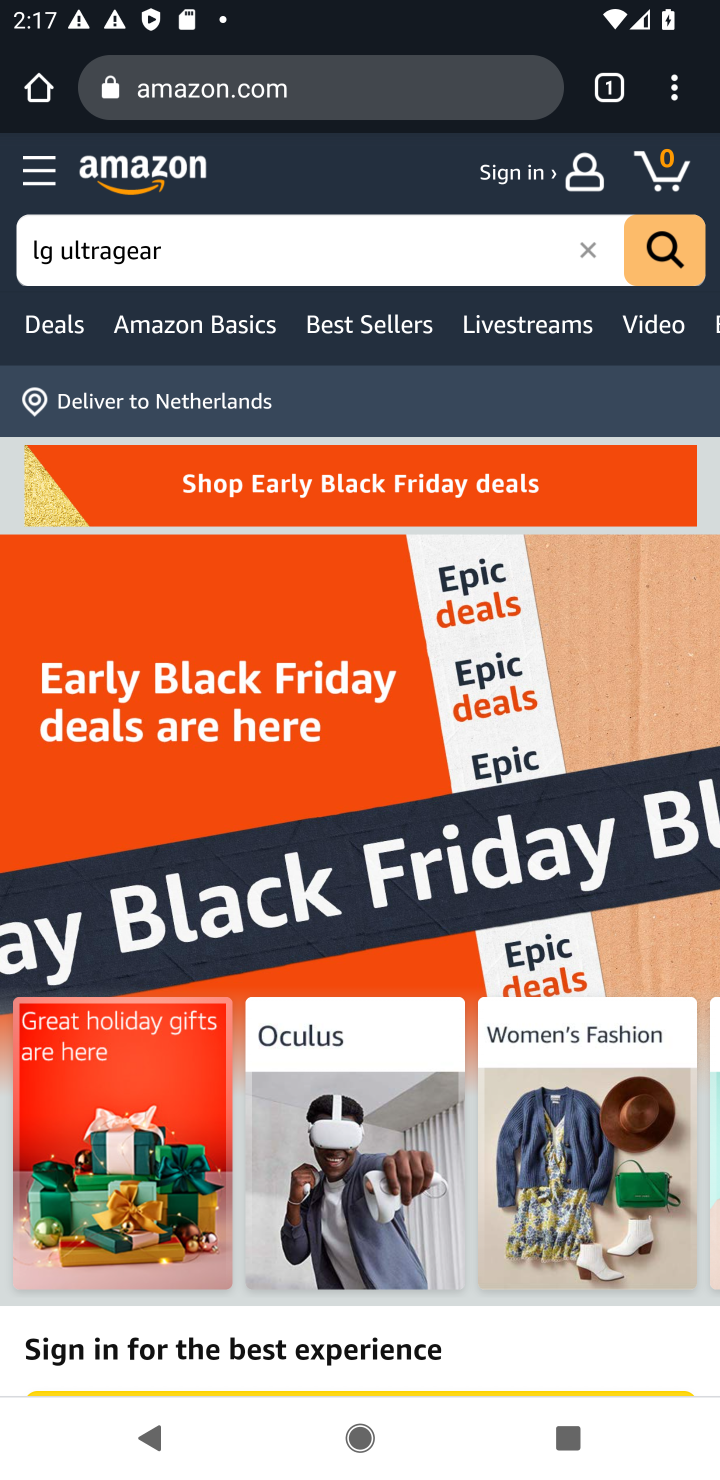
Step 32: click (659, 251)
Your task to perform on an android device: Clear the cart on amazon.com. Add lg ultragear to the cart on amazon.com Image 33: 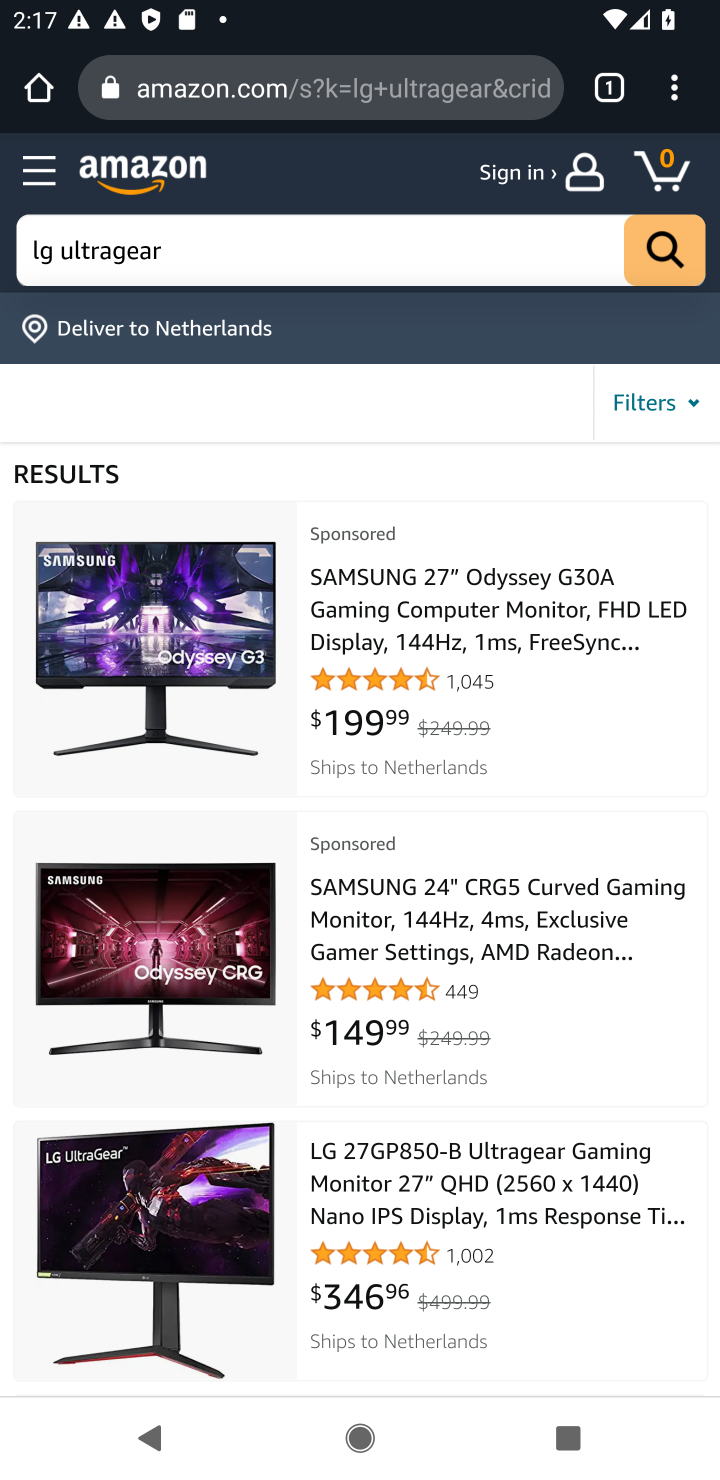
Step 33: drag from (340, 1036) to (402, 326)
Your task to perform on an android device: Clear the cart on amazon.com. Add lg ultragear to the cart on amazon.com Image 34: 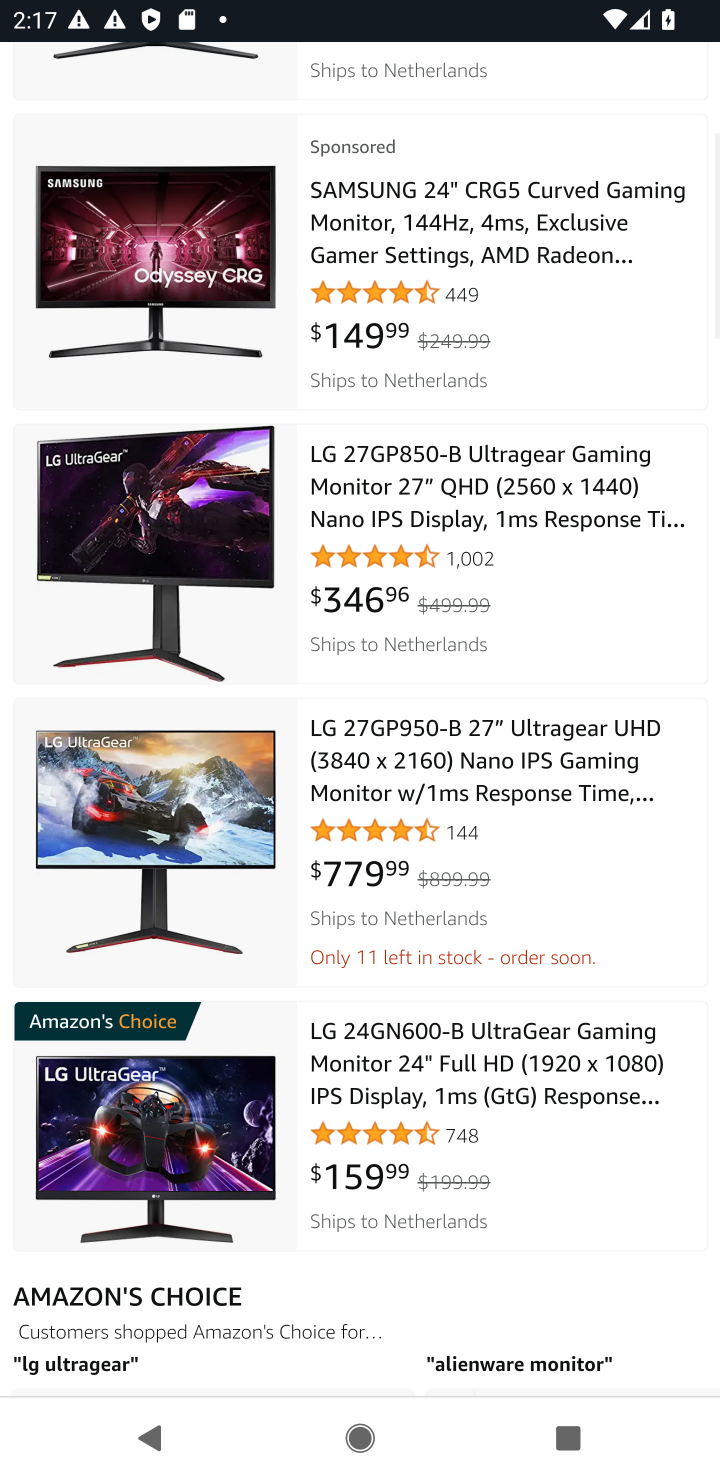
Step 34: click (409, 758)
Your task to perform on an android device: Clear the cart on amazon.com. Add lg ultragear to the cart on amazon.com Image 35: 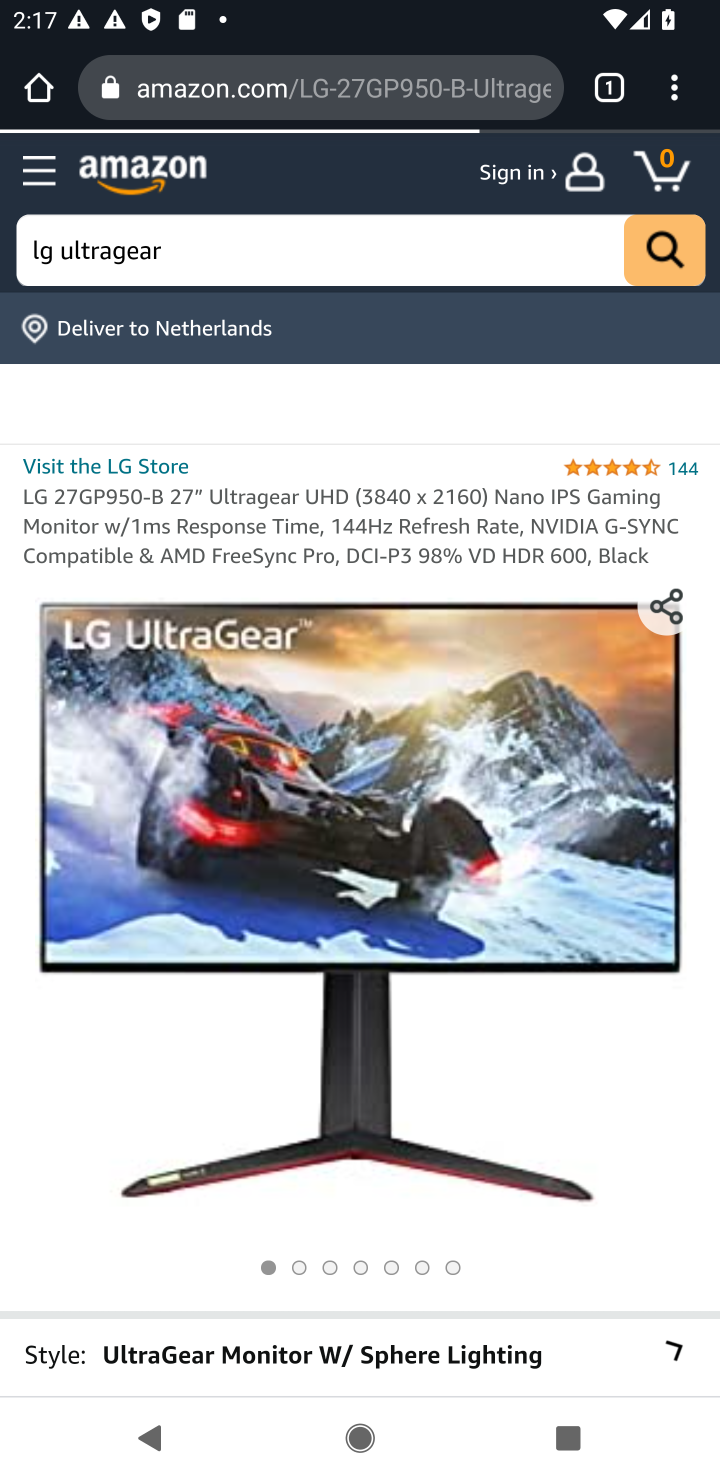
Step 35: task complete